Your task to perform on an android device: Add "macbook pro" to the cart on newegg.com, then select checkout. Image 0: 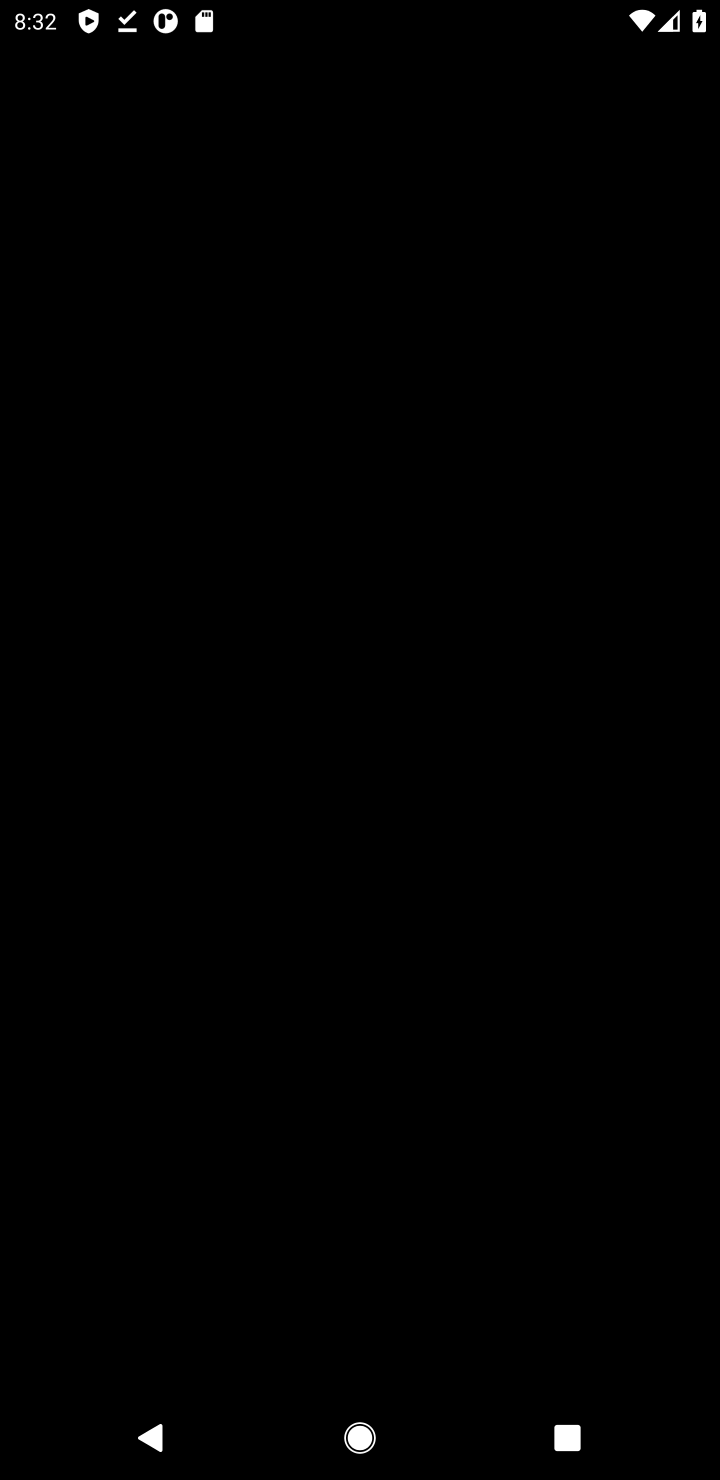
Step 0: press home button
Your task to perform on an android device: Add "macbook pro" to the cart on newegg.com, then select checkout. Image 1: 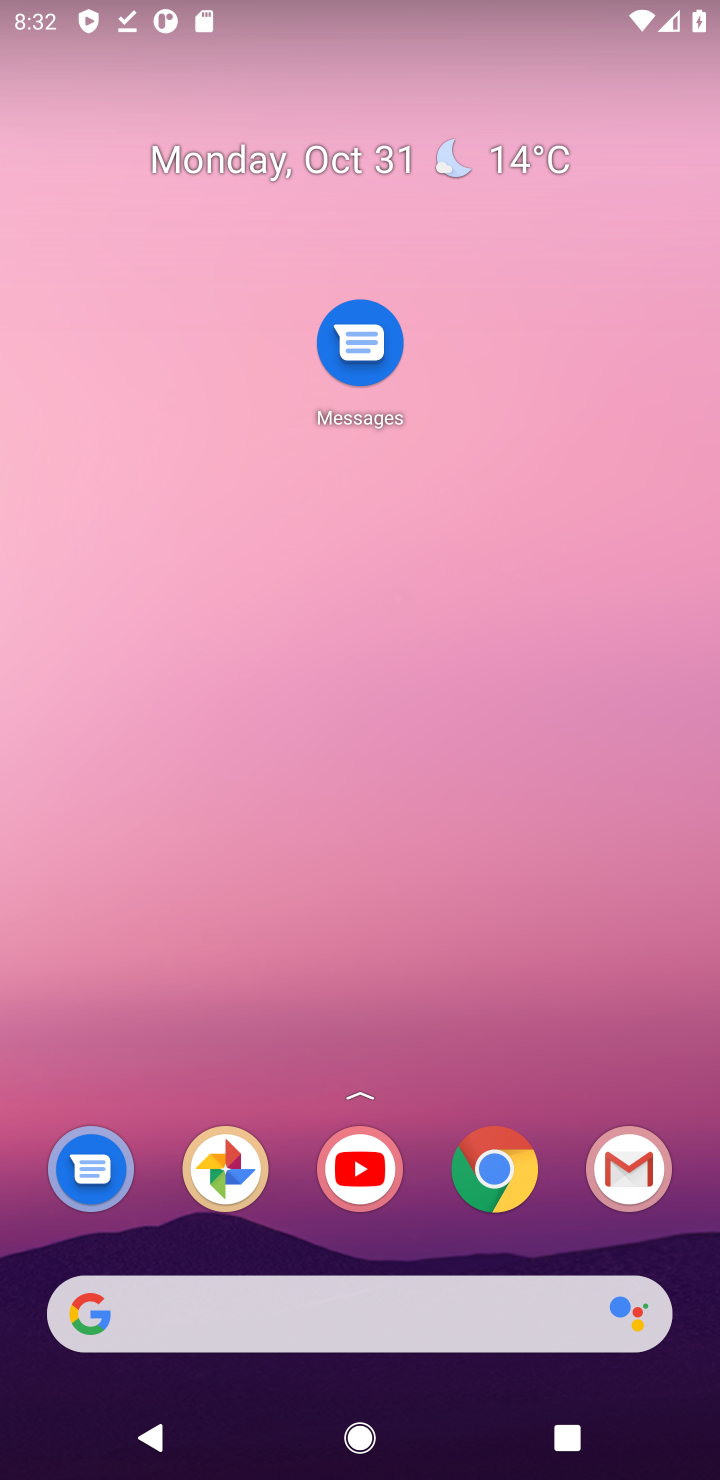
Step 1: drag from (269, 662) to (274, 128)
Your task to perform on an android device: Add "macbook pro" to the cart on newegg.com, then select checkout. Image 2: 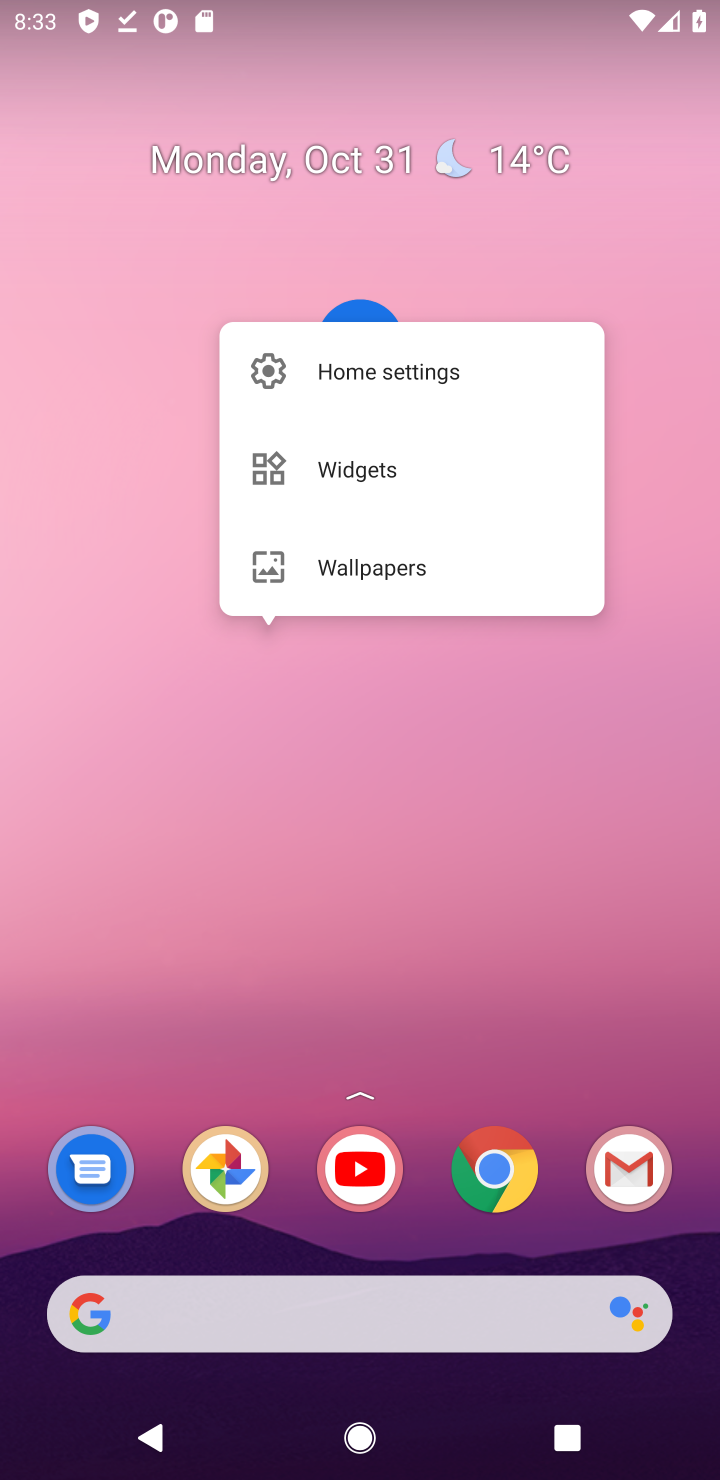
Step 2: click (366, 828)
Your task to perform on an android device: Add "macbook pro" to the cart on newegg.com, then select checkout. Image 3: 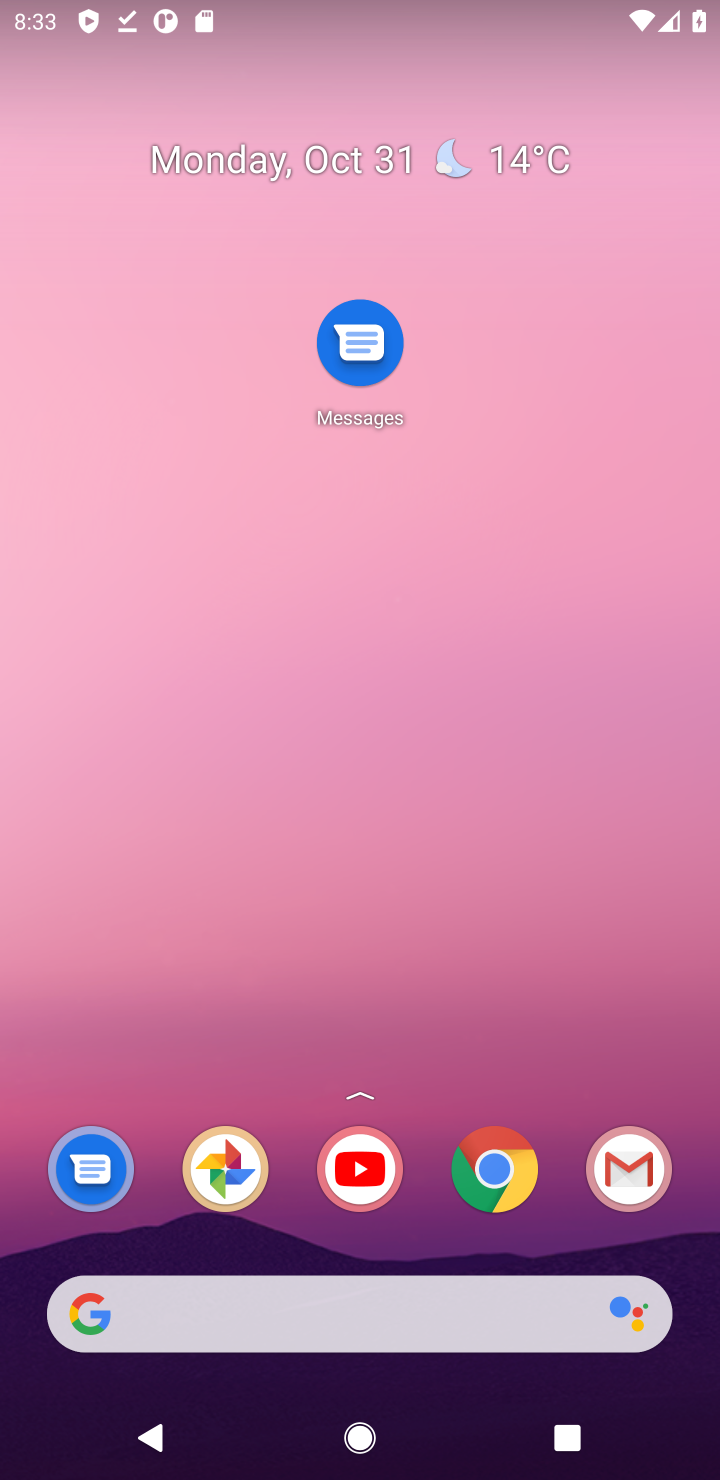
Step 3: drag from (185, 944) to (85, 114)
Your task to perform on an android device: Add "macbook pro" to the cart on newegg.com, then select checkout. Image 4: 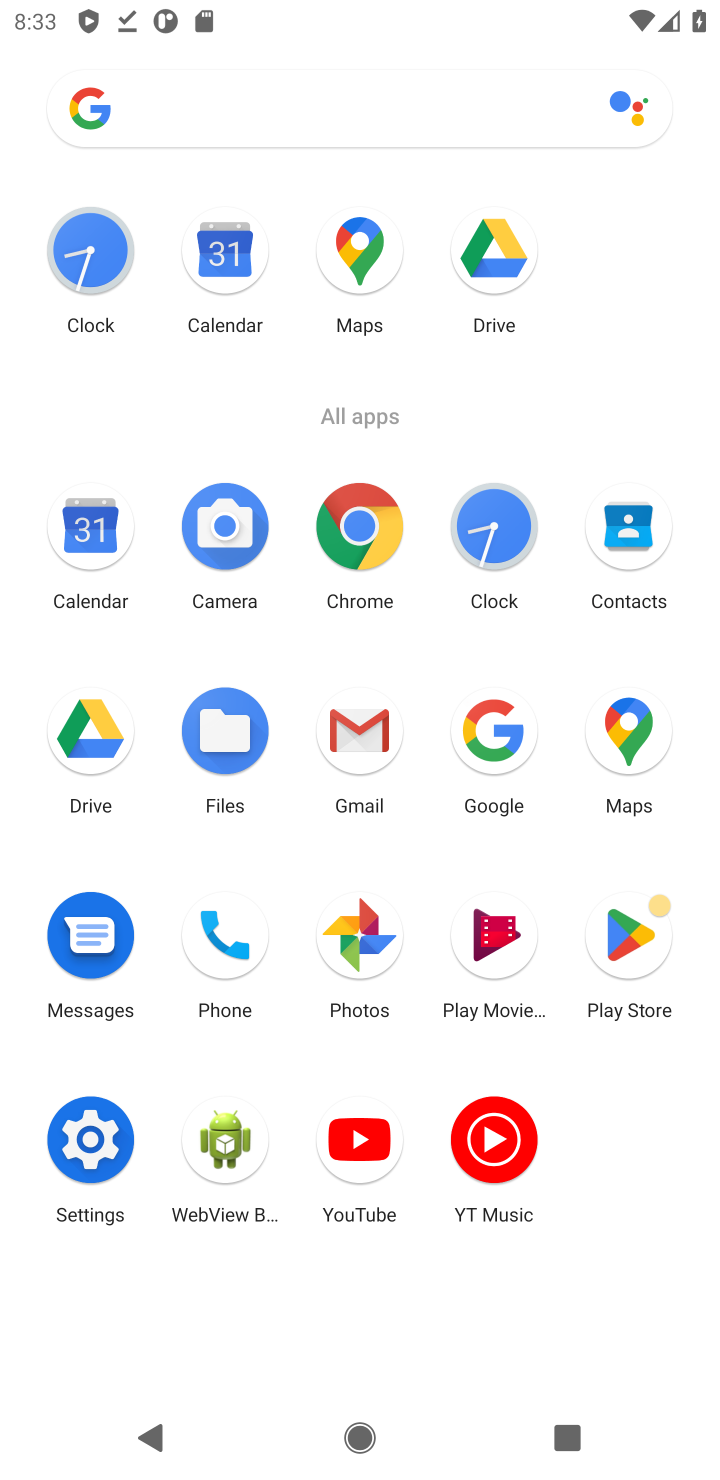
Step 4: click (496, 729)
Your task to perform on an android device: Add "macbook pro" to the cart on newegg.com, then select checkout. Image 5: 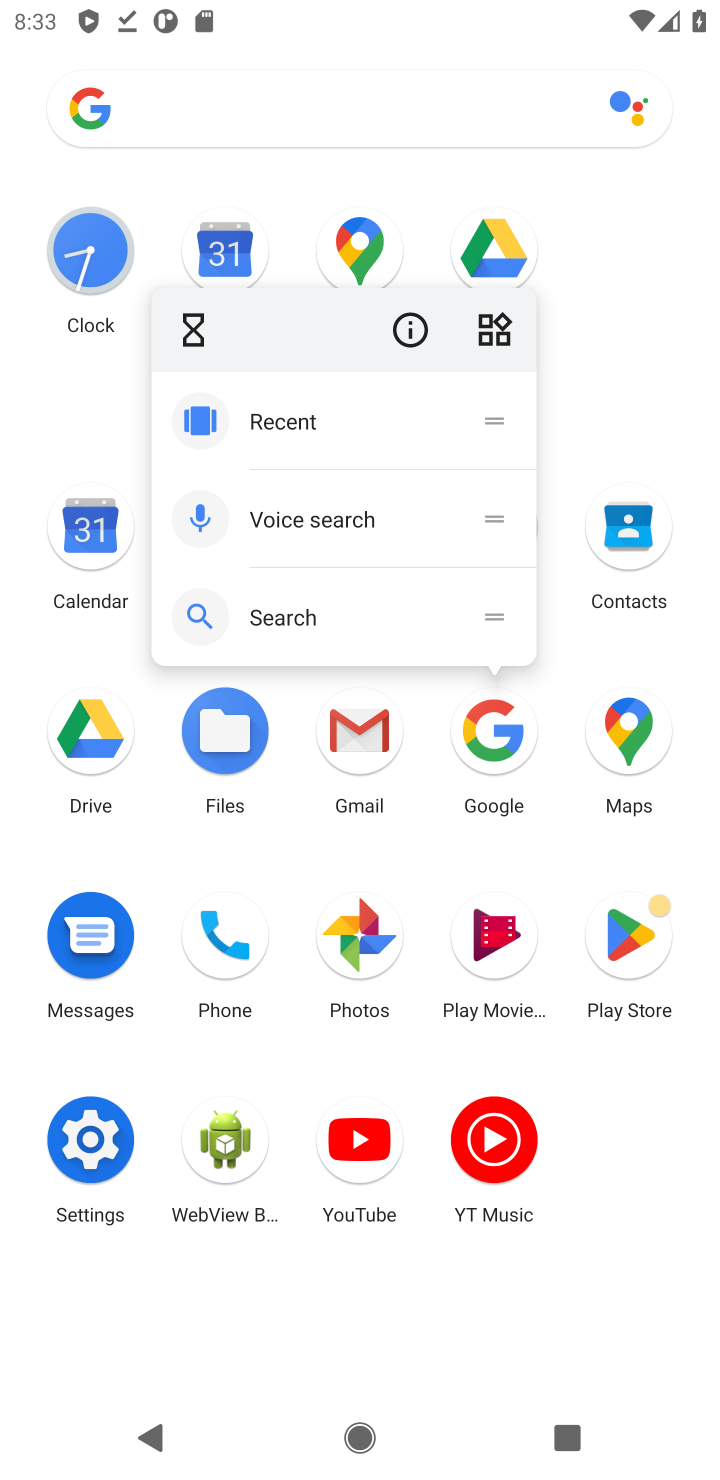
Step 5: click (492, 726)
Your task to perform on an android device: Add "macbook pro" to the cart on newegg.com, then select checkout. Image 6: 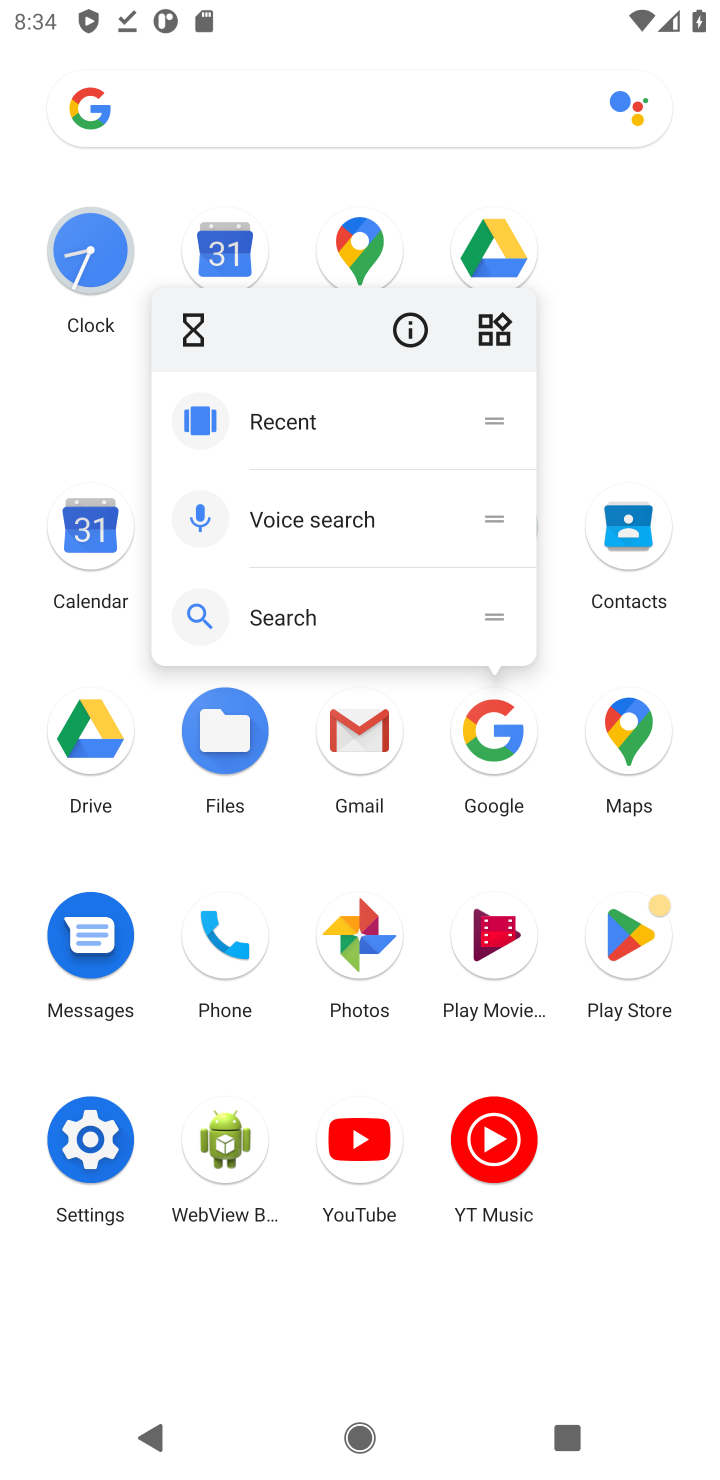
Step 6: click (498, 734)
Your task to perform on an android device: Add "macbook pro" to the cart on newegg.com, then select checkout. Image 7: 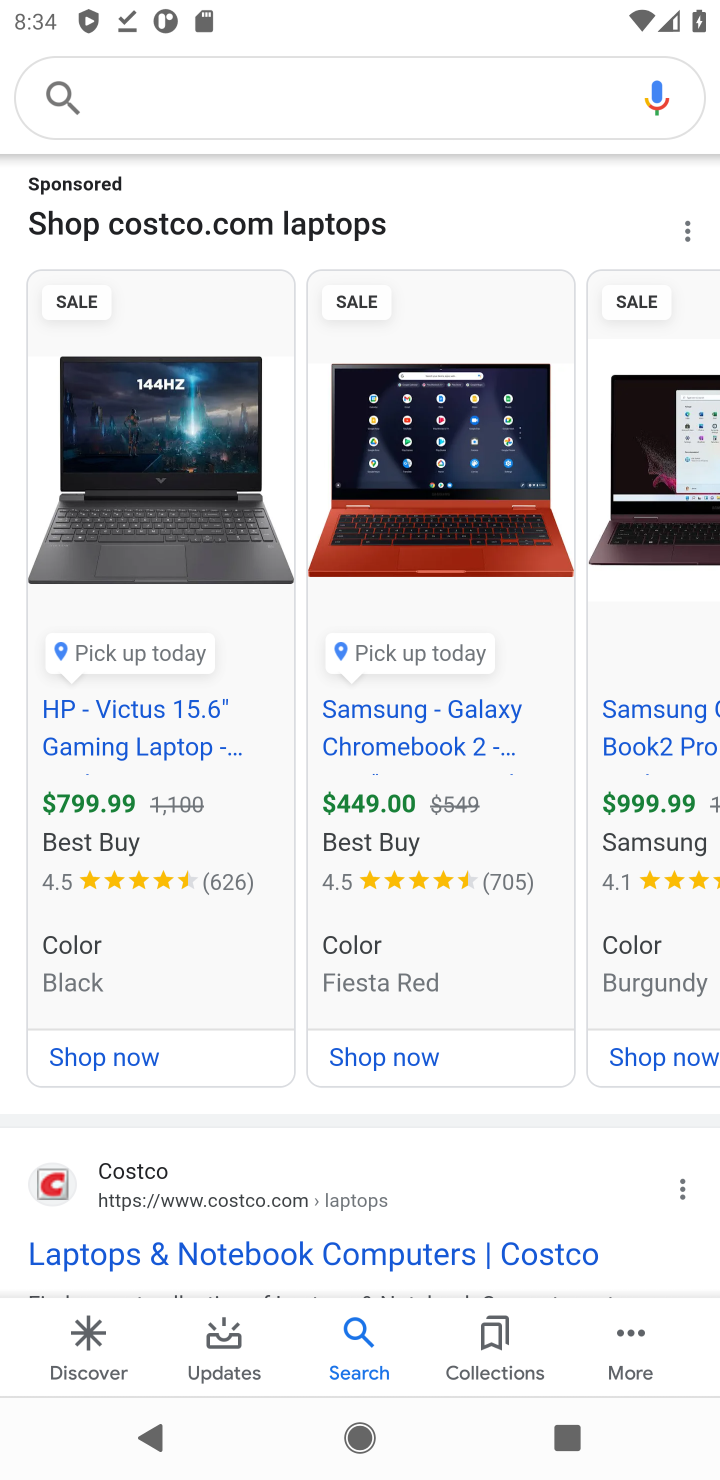
Step 7: click (479, 707)
Your task to perform on an android device: Add "macbook pro" to the cart on newegg.com, then select checkout. Image 8: 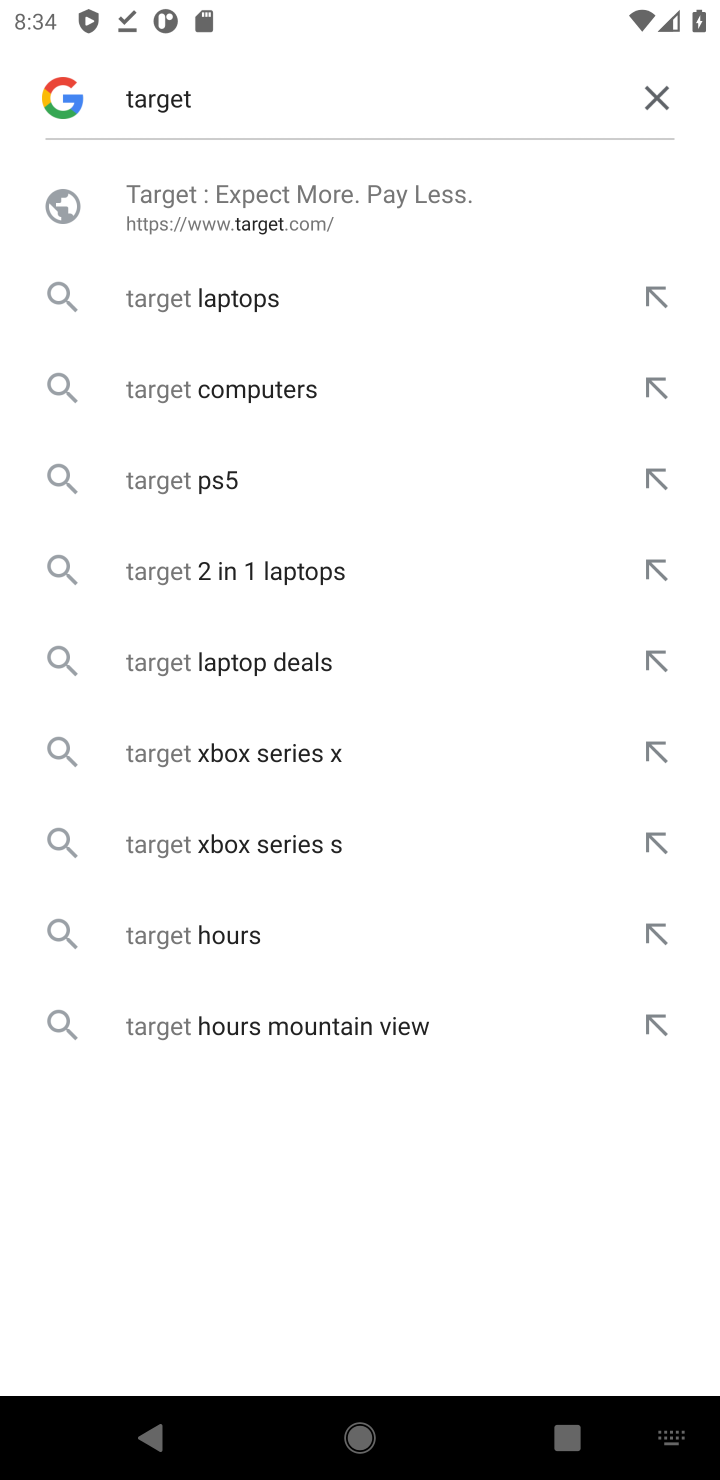
Step 8: click (185, 75)
Your task to perform on an android device: Add "macbook pro" to the cart on newegg.com, then select checkout. Image 9: 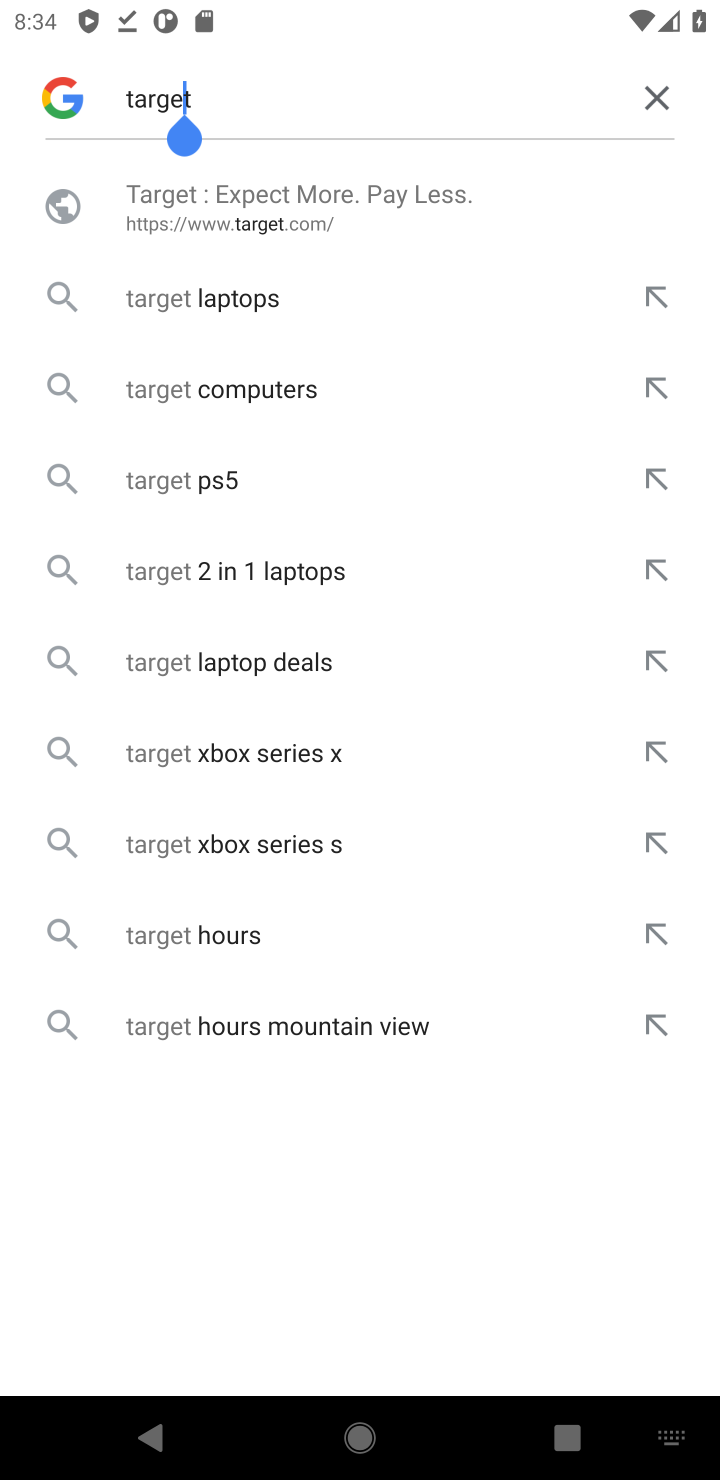
Step 9: click (657, 108)
Your task to perform on an android device: Add "macbook pro" to the cart on newegg.com, then select checkout. Image 10: 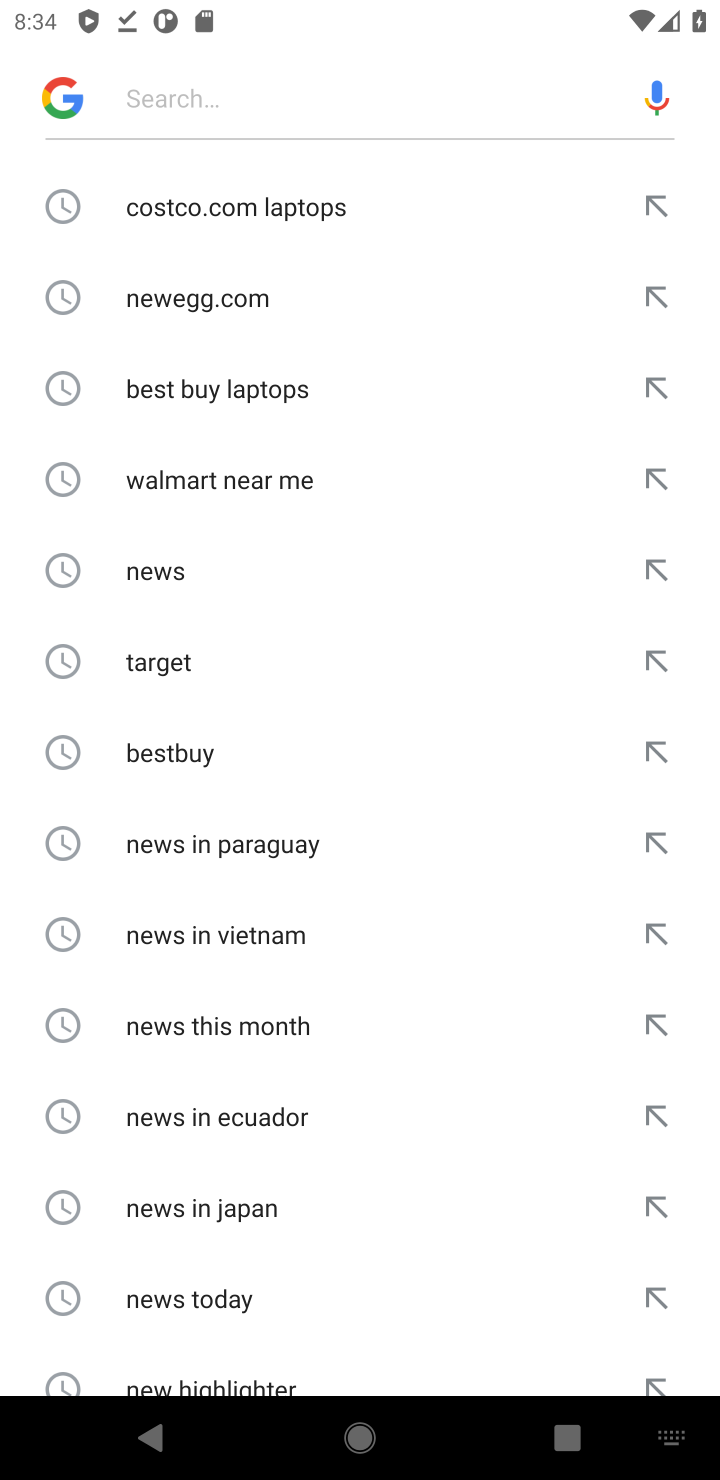
Step 10: click (248, 84)
Your task to perform on an android device: Add "macbook pro" to the cart on newegg.com, then select checkout. Image 11: 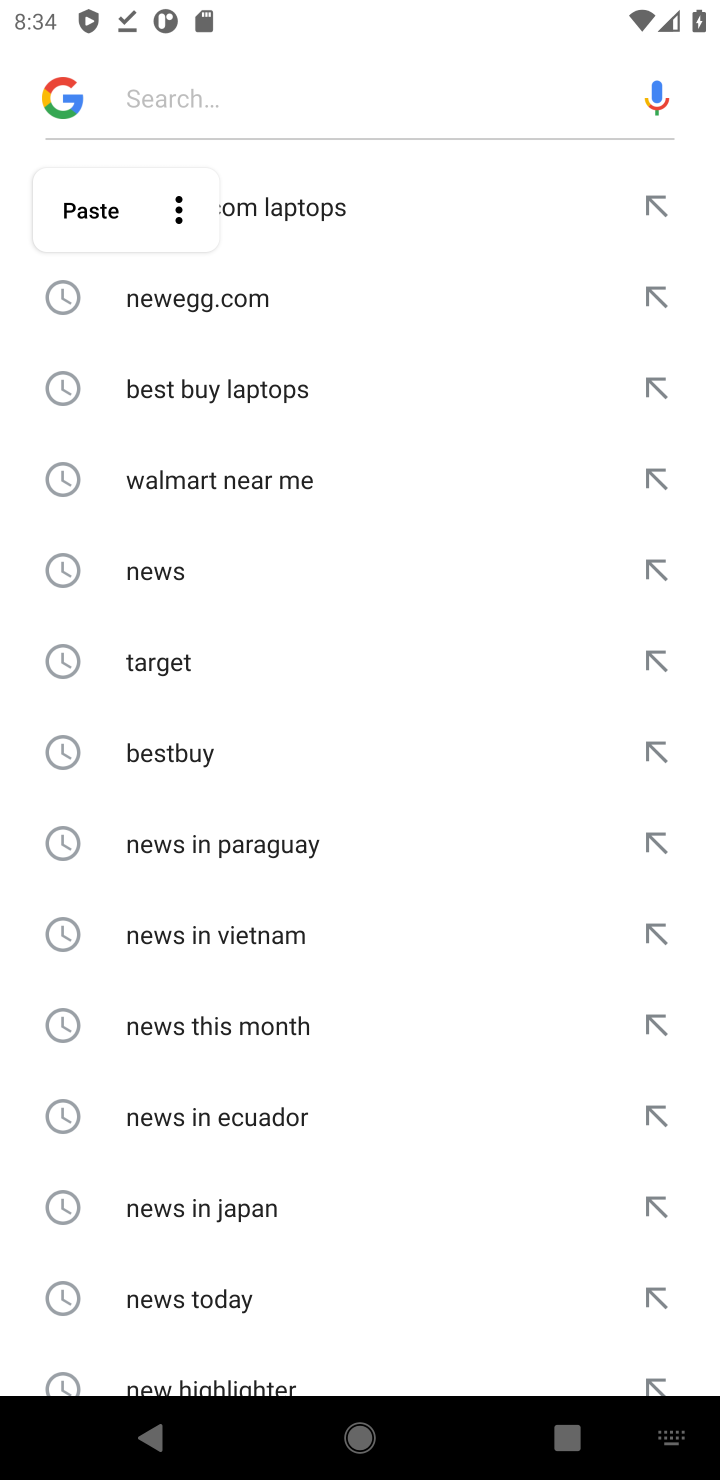
Step 11: click (220, 64)
Your task to perform on an android device: Add "macbook pro" to the cart on newegg.com, then select checkout. Image 12: 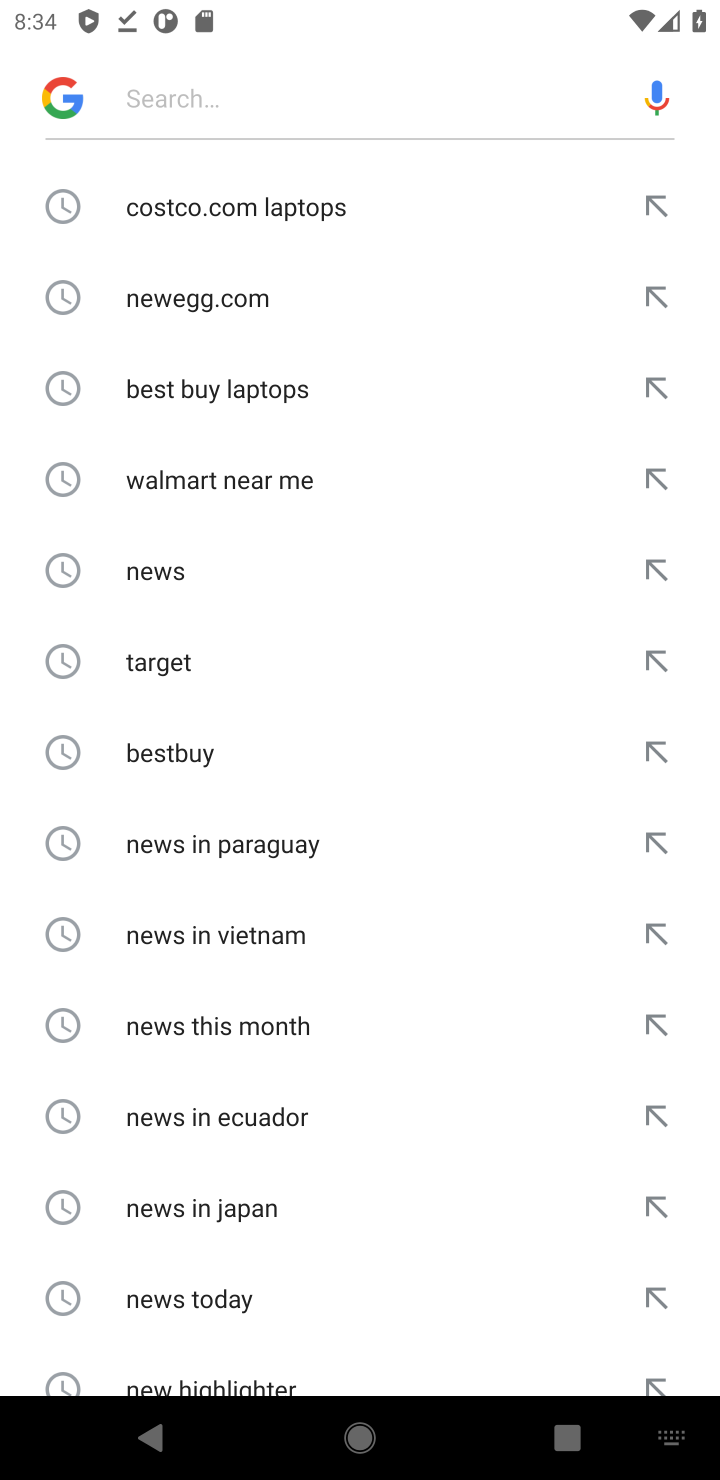
Step 12: type "newegg "
Your task to perform on an android device: Add "macbook pro" to the cart on newegg.com, then select checkout. Image 13: 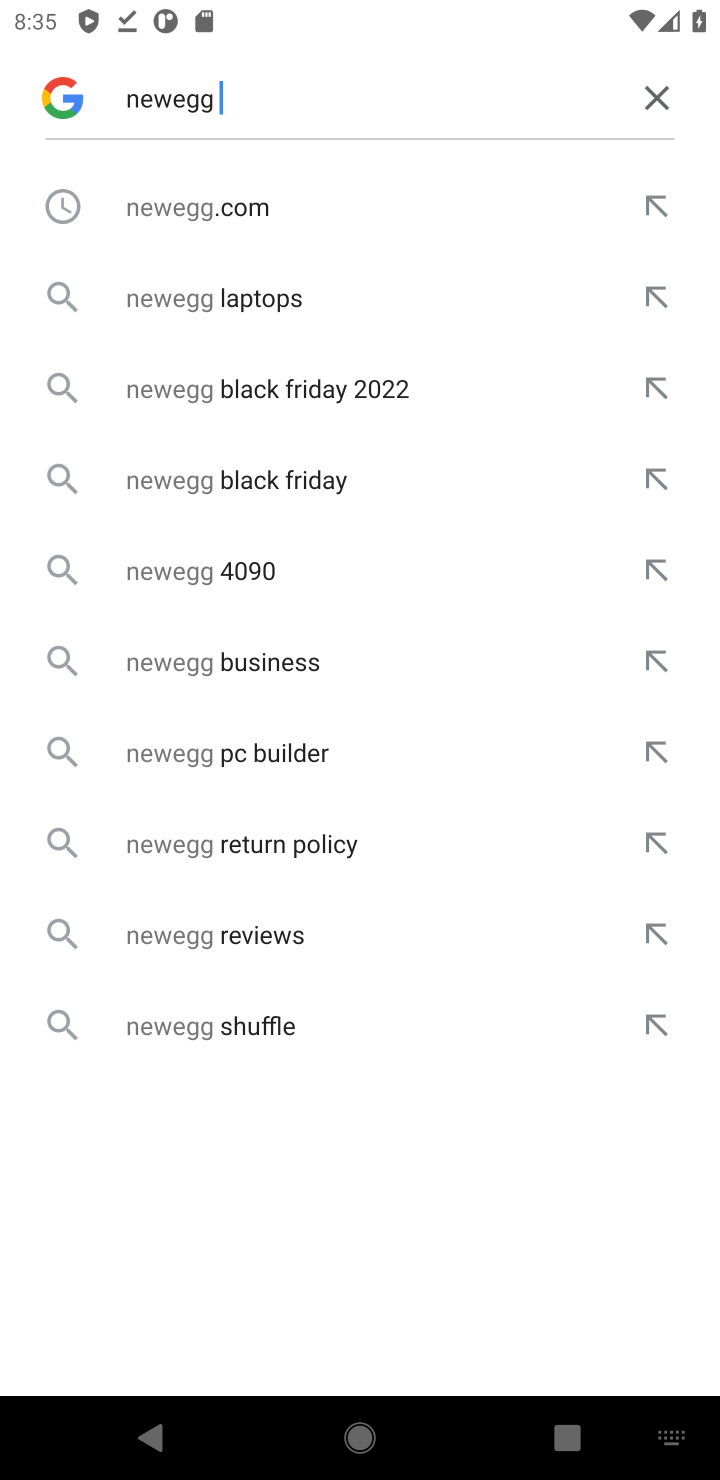
Step 13: click (196, 295)
Your task to perform on an android device: Add "macbook pro" to the cart on newegg.com, then select checkout. Image 14: 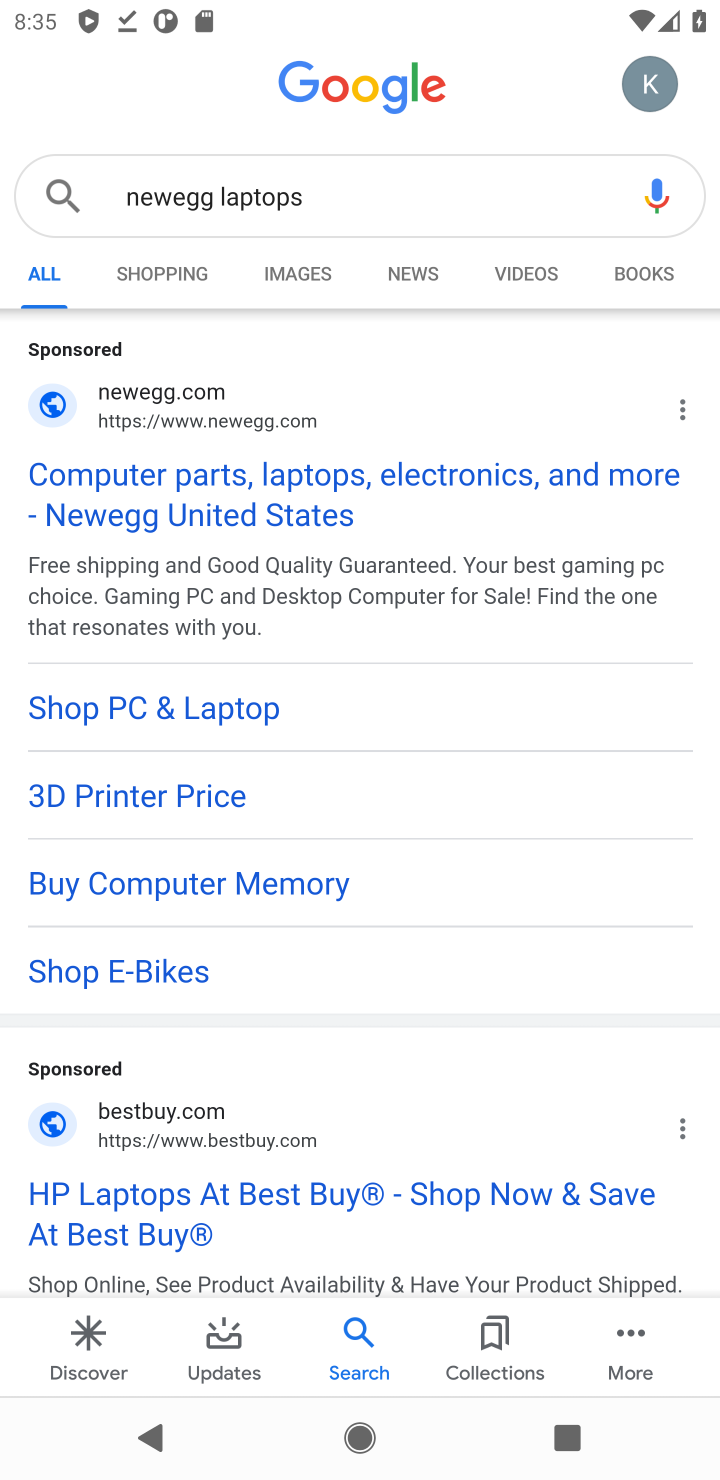
Step 14: click (257, 456)
Your task to perform on an android device: Add "macbook pro" to the cart on newegg.com, then select checkout. Image 15: 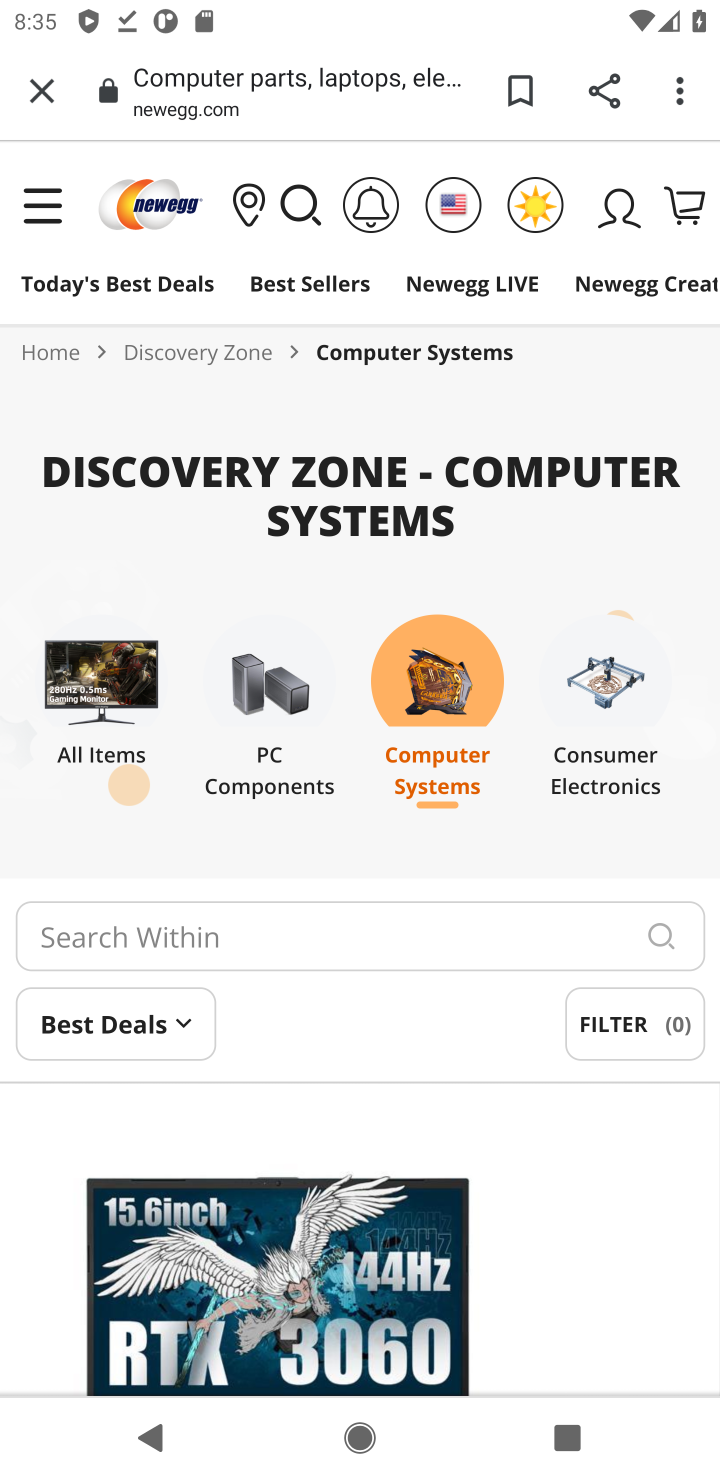
Step 15: drag from (351, 1352) to (370, 870)
Your task to perform on an android device: Add "macbook pro" to the cart on newegg.com, then select checkout. Image 16: 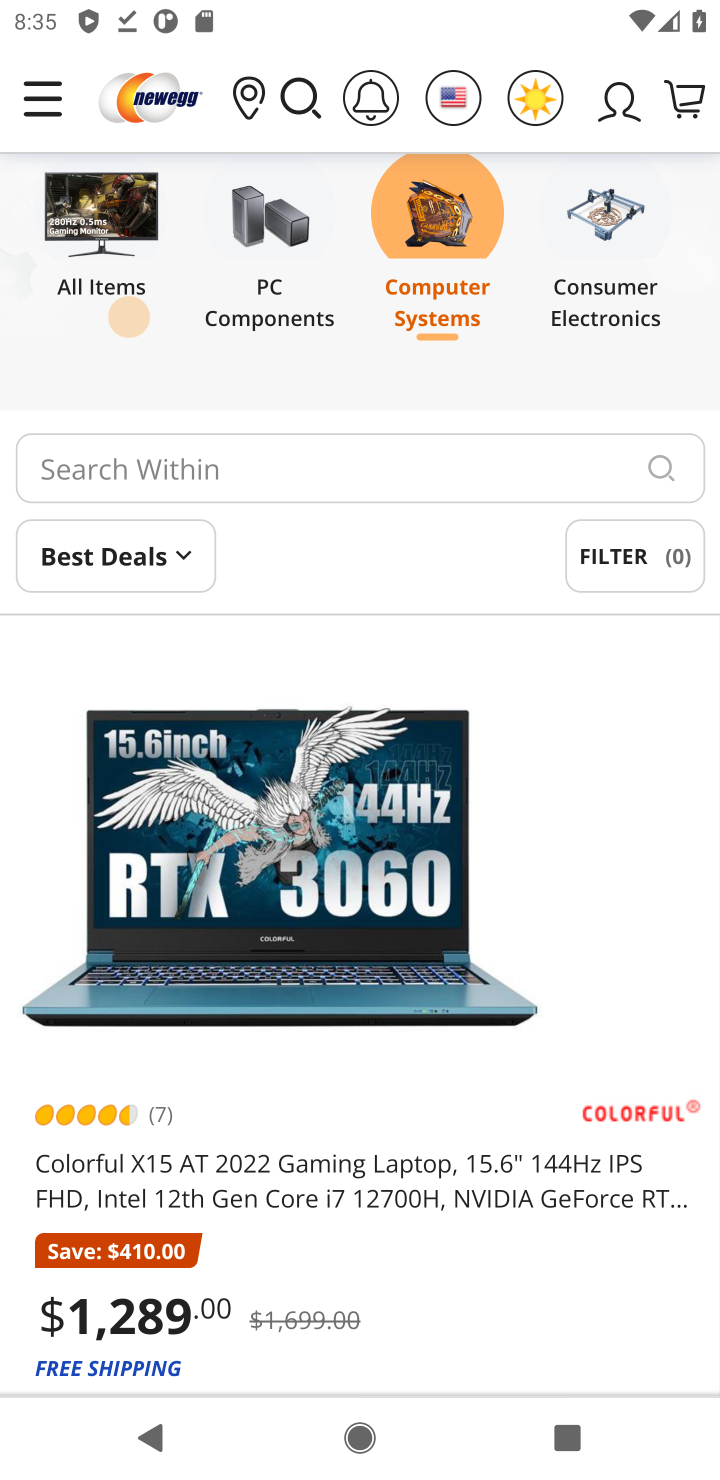
Step 16: drag from (285, 580) to (235, 1373)
Your task to perform on an android device: Add "macbook pro" to the cart on newegg.com, then select checkout. Image 17: 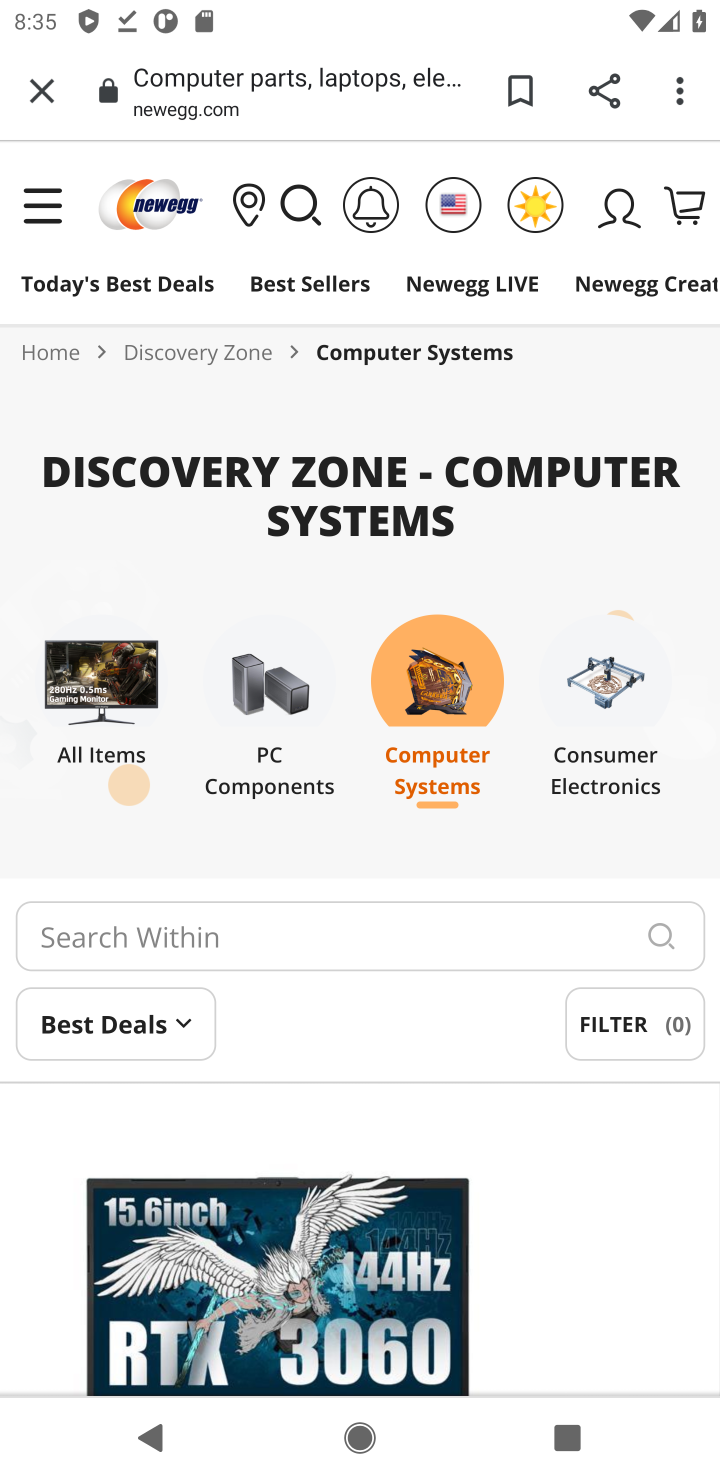
Step 17: click (298, 922)
Your task to perform on an android device: Add "macbook pro" to the cart on newegg.com, then select checkout. Image 18: 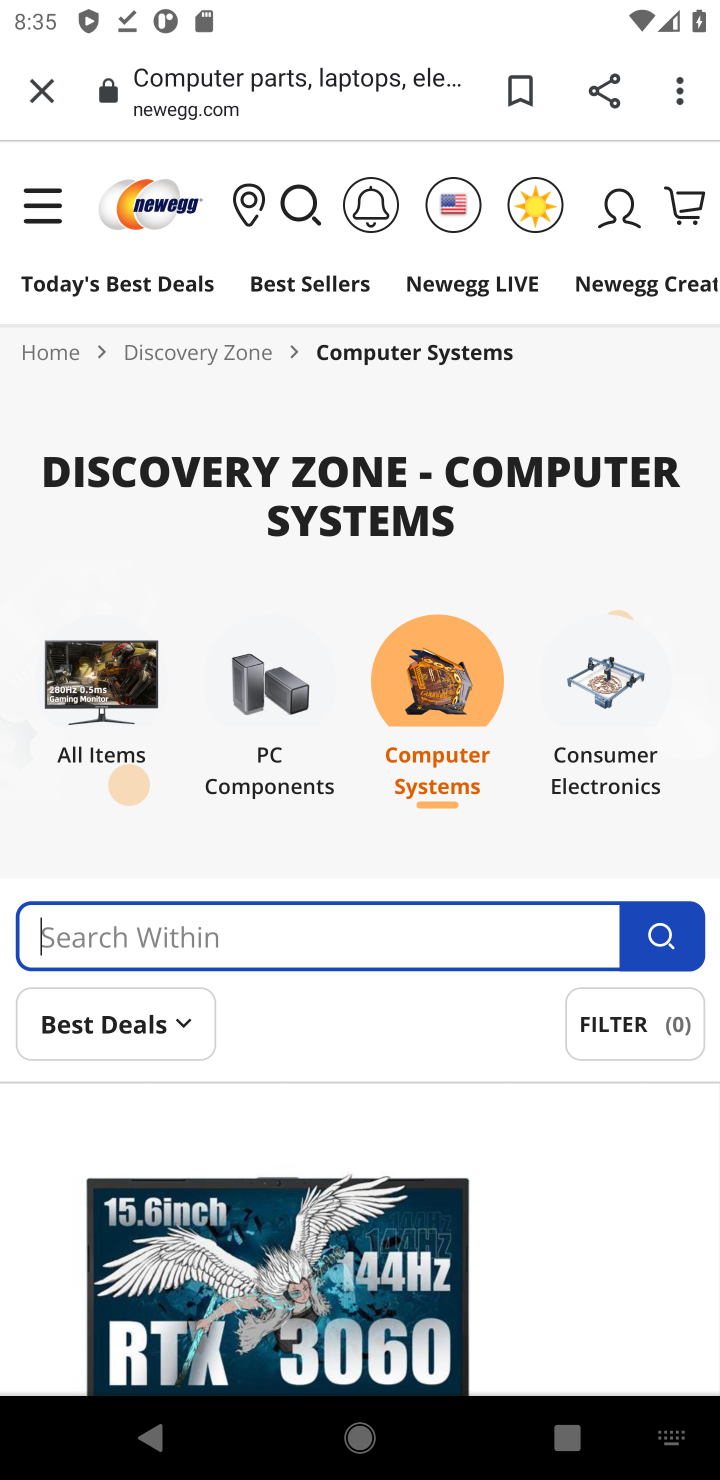
Step 18: click (333, 914)
Your task to perform on an android device: Add "macbook pro" to the cart on newegg.com, then select checkout. Image 19: 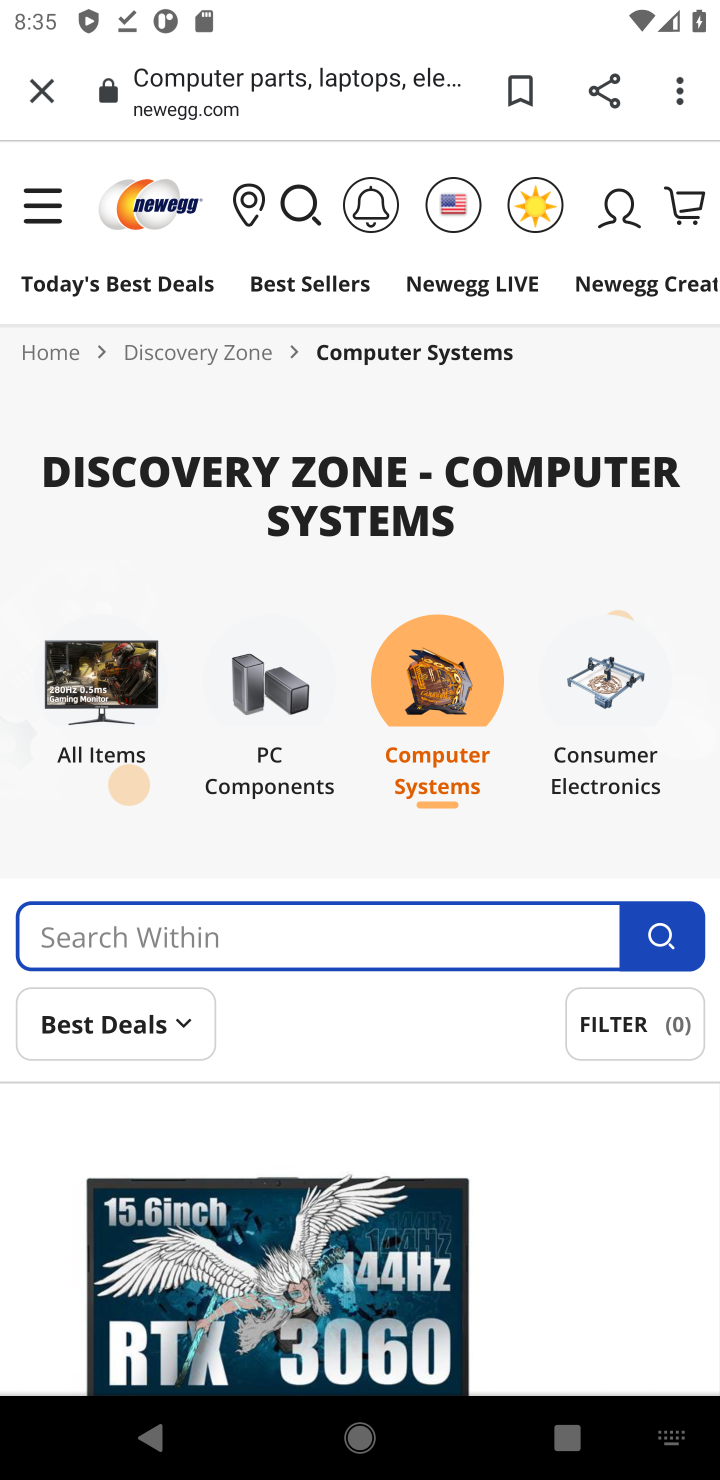
Step 19: type "macbook "
Your task to perform on an android device: Add "macbook pro" to the cart on newegg.com, then select checkout. Image 20: 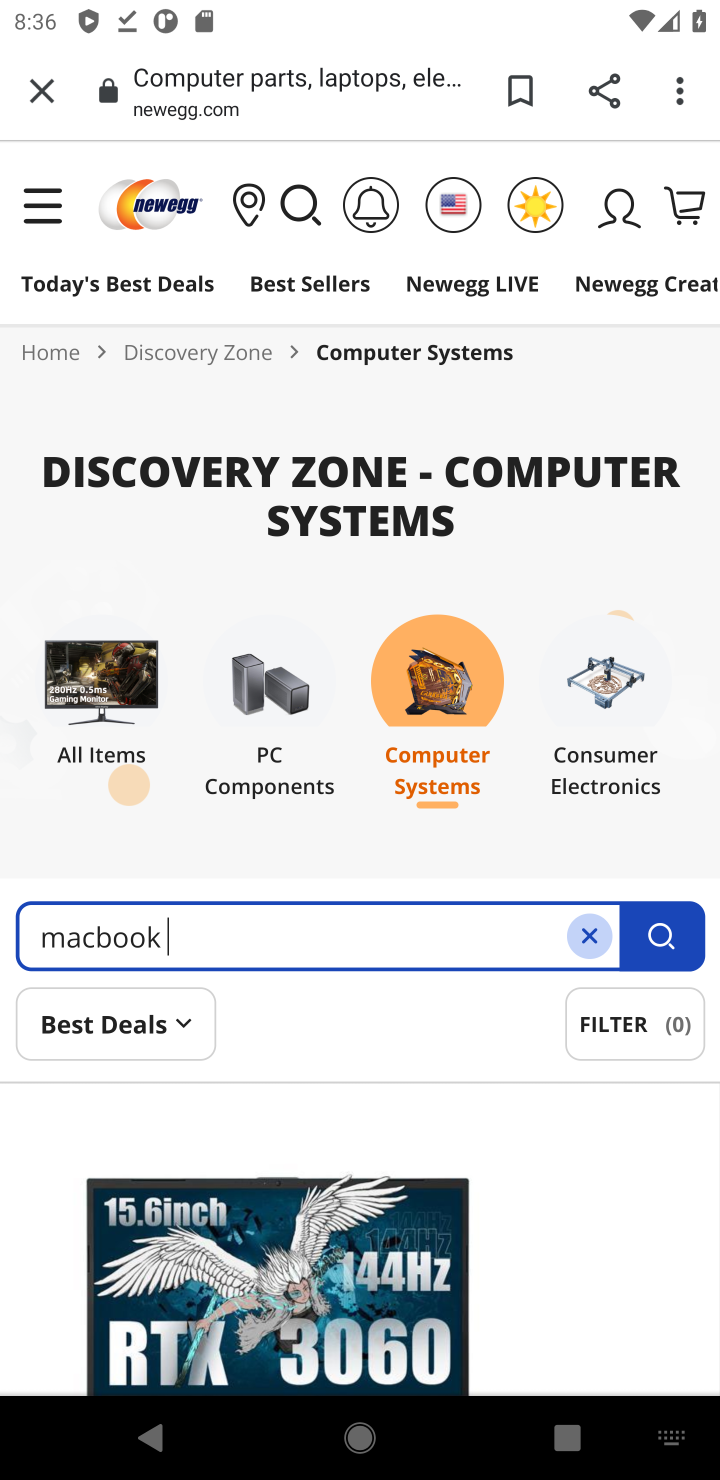
Step 20: click (636, 937)
Your task to perform on an android device: Add "macbook pro" to the cart on newegg.com, then select checkout. Image 21: 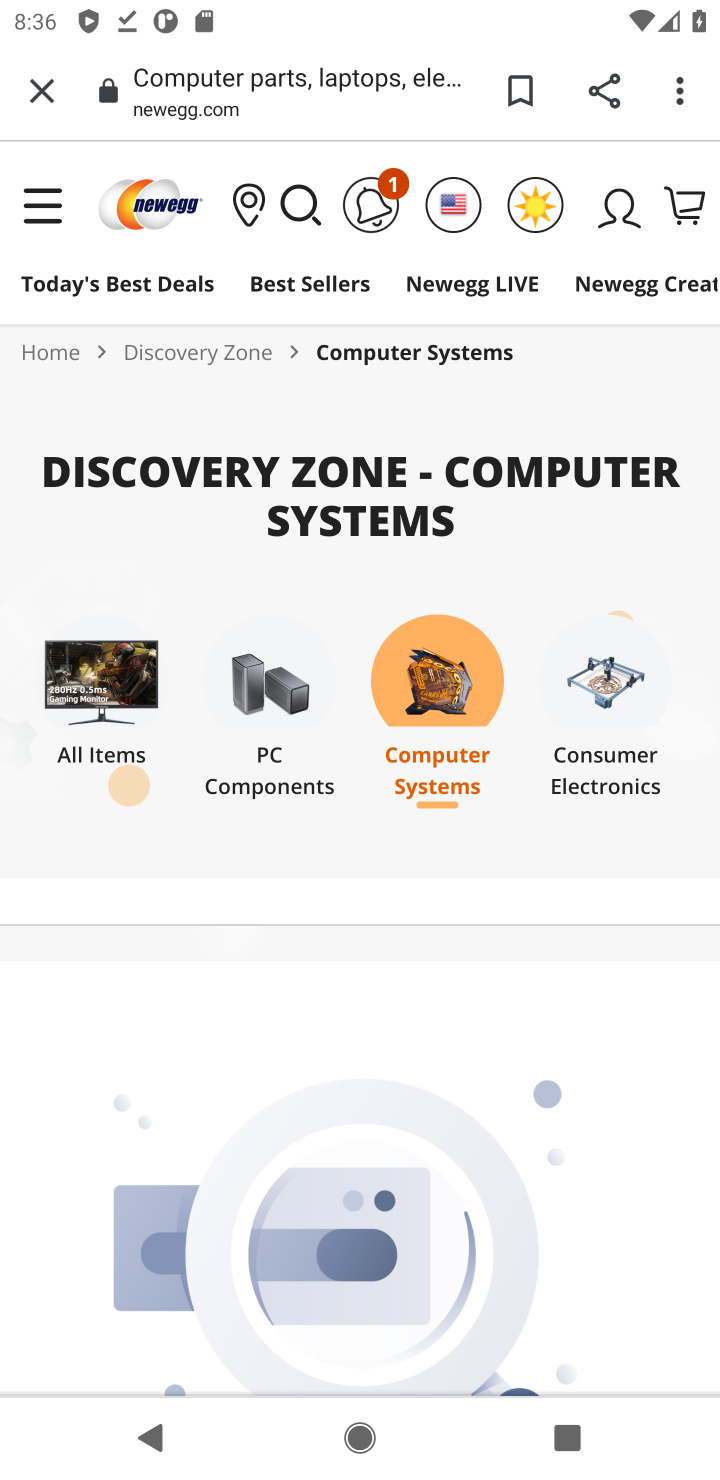
Step 21: drag from (317, 1183) to (309, 775)
Your task to perform on an android device: Add "macbook pro" to the cart on newegg.com, then select checkout. Image 22: 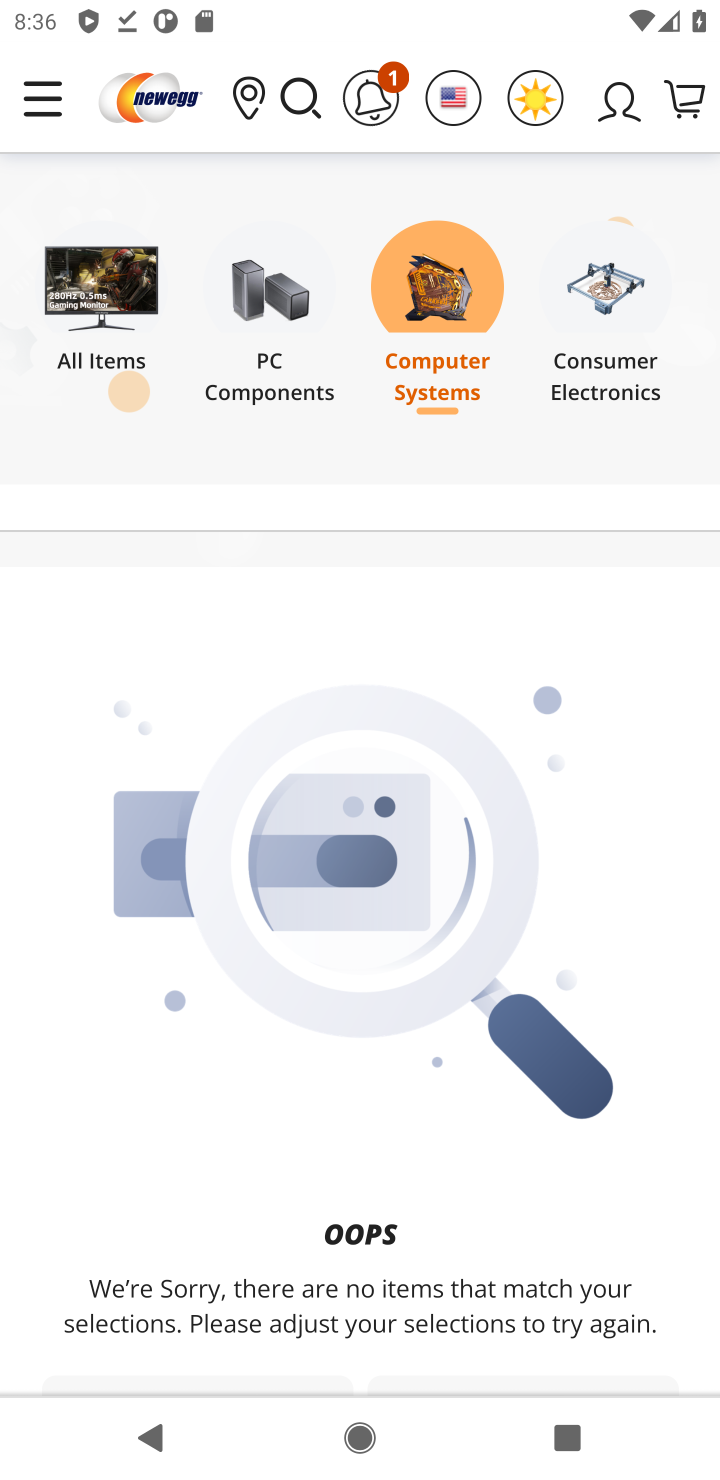
Step 22: drag from (297, 1079) to (294, 927)
Your task to perform on an android device: Add "macbook pro" to the cart on newegg.com, then select checkout. Image 23: 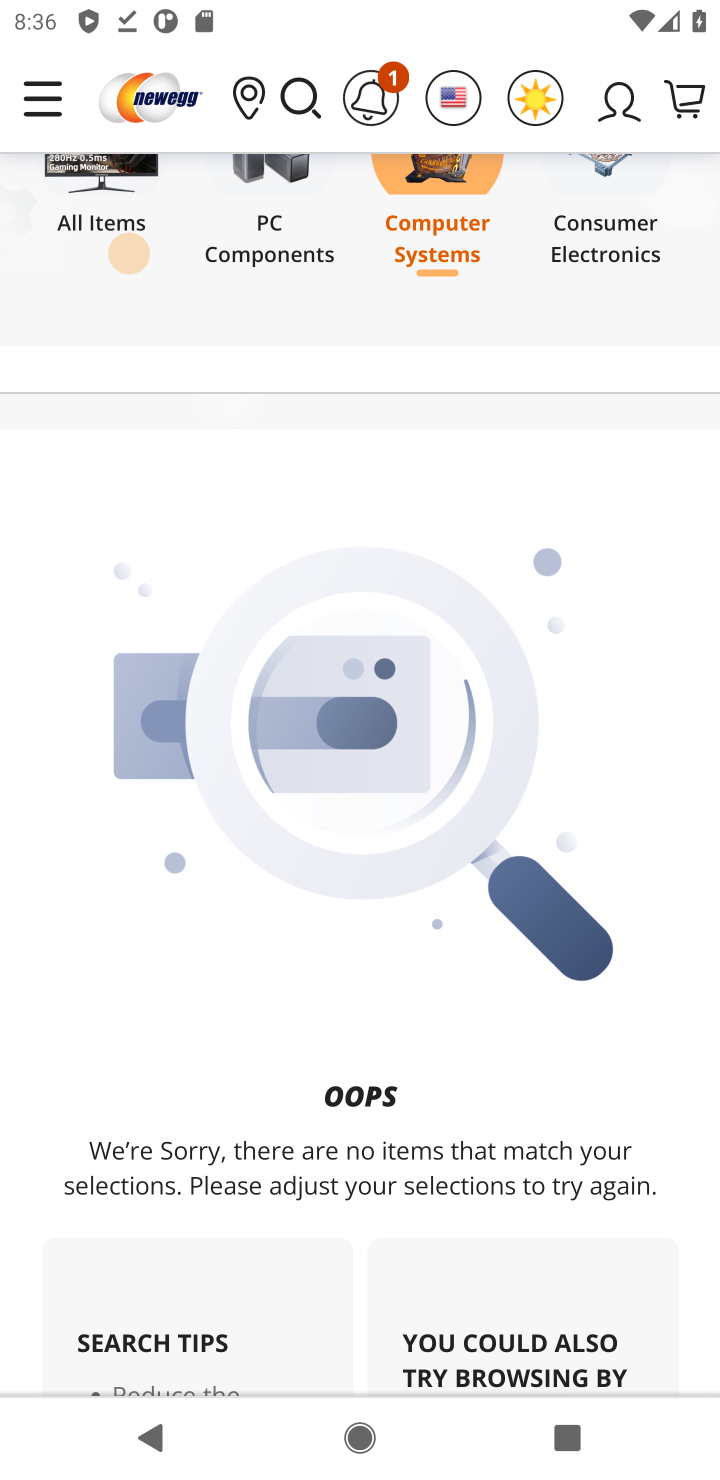
Step 23: drag from (280, 1247) to (399, 268)
Your task to perform on an android device: Add "macbook pro" to the cart on newegg.com, then select checkout. Image 24: 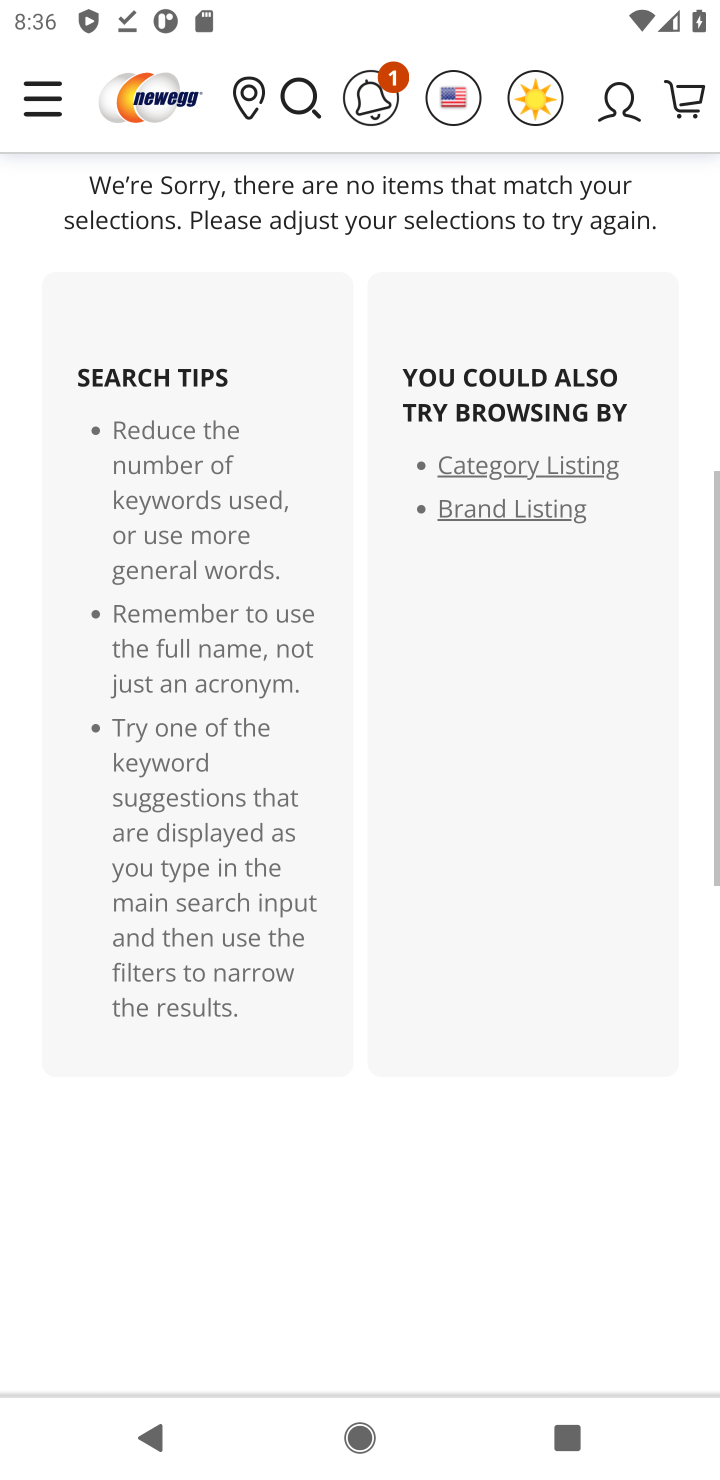
Step 24: drag from (364, 392) to (344, 1458)
Your task to perform on an android device: Add "macbook pro" to the cart on newegg.com, then select checkout. Image 25: 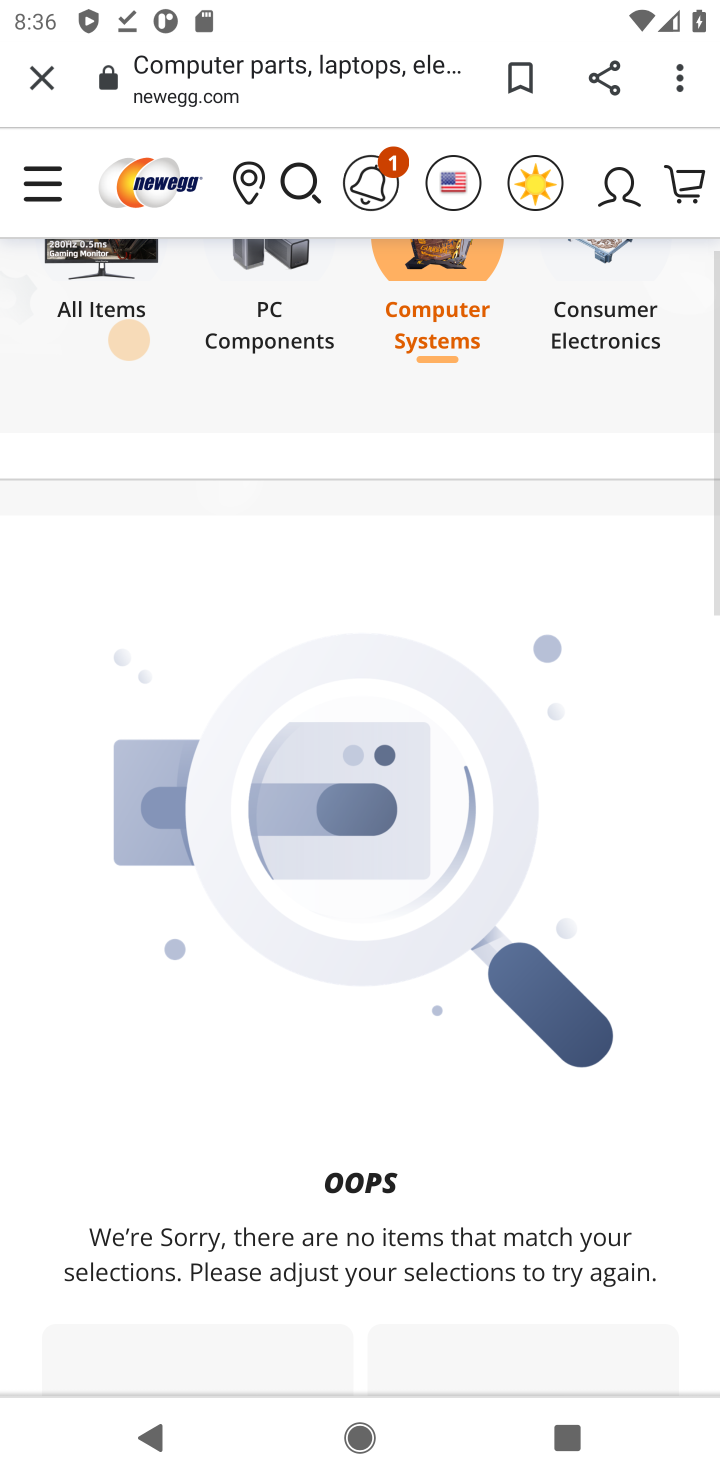
Step 25: drag from (283, 1410) to (357, 1418)
Your task to perform on an android device: Add "macbook pro" to the cart on newegg.com, then select checkout. Image 26: 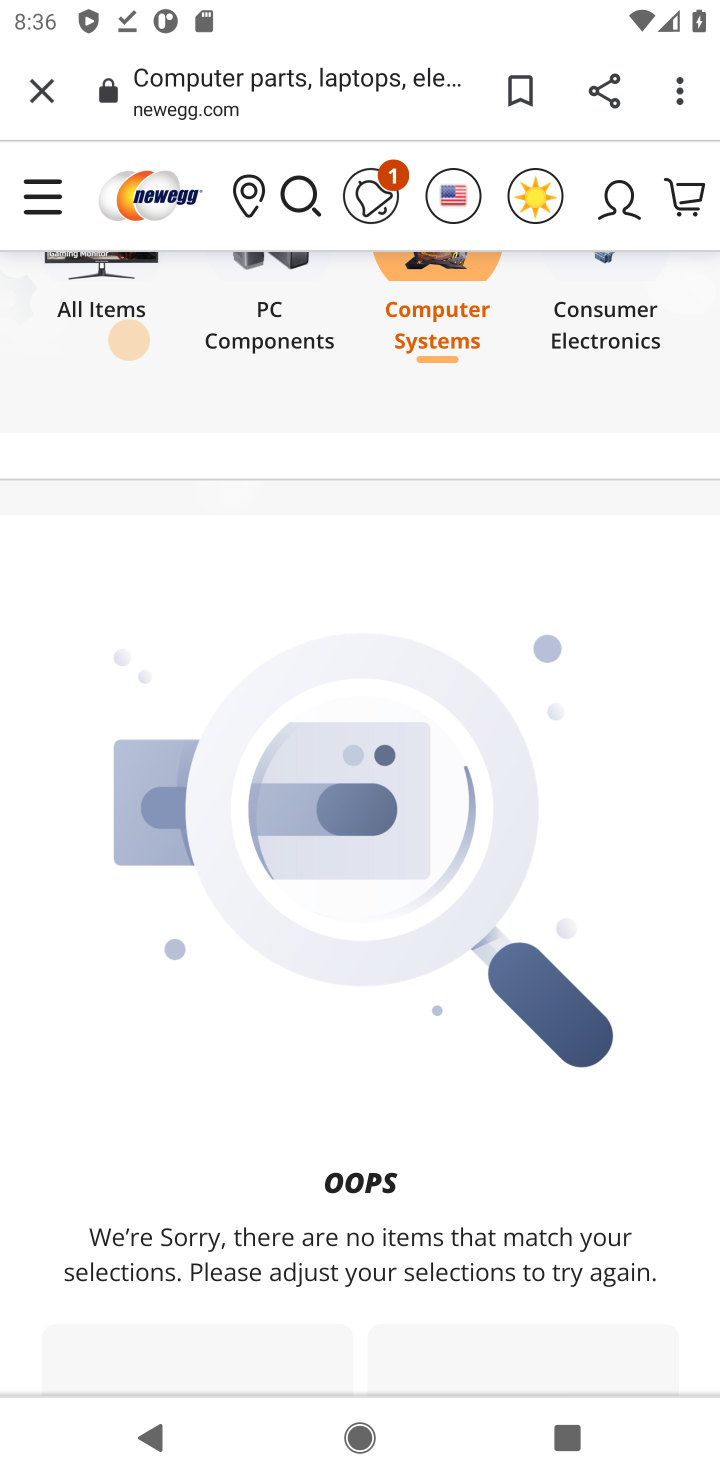
Step 26: drag from (140, 480) to (179, 1441)
Your task to perform on an android device: Add "macbook pro" to the cart on newegg.com, then select checkout. Image 27: 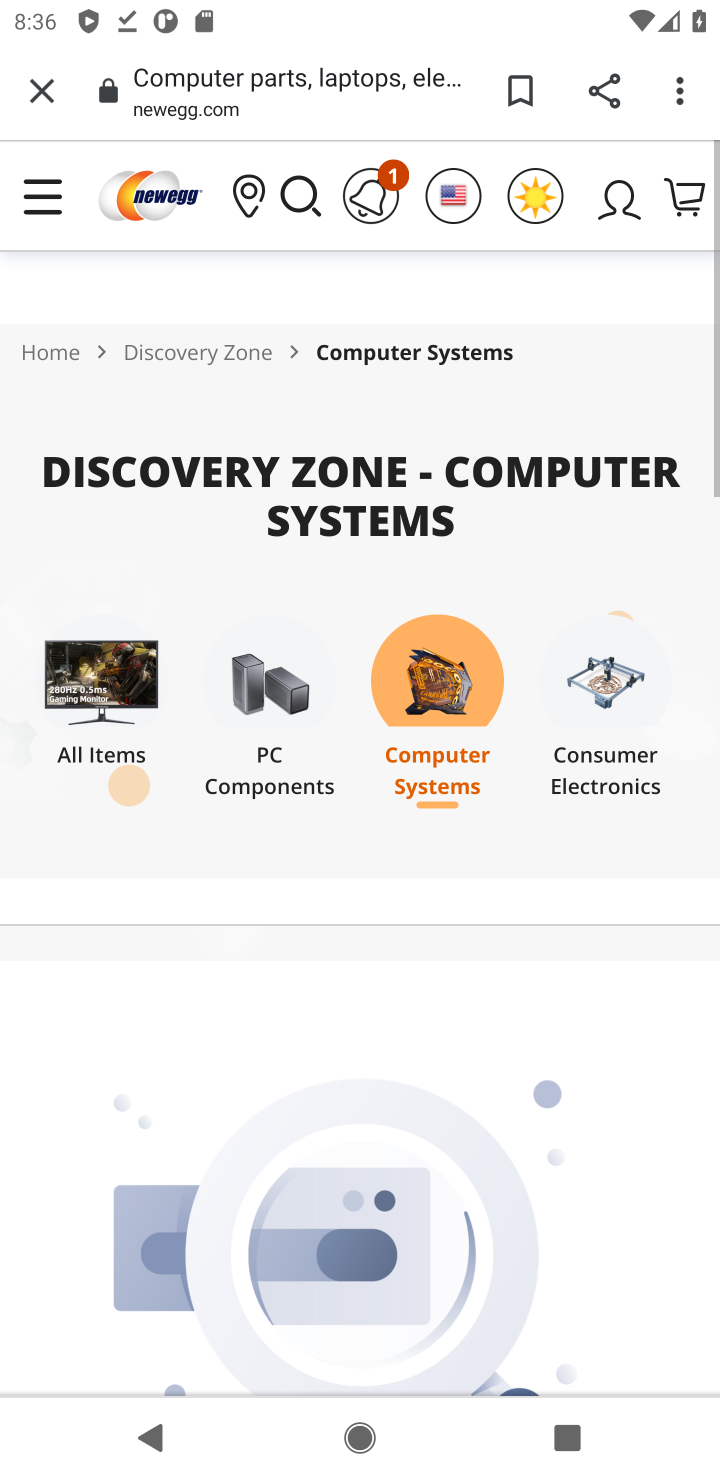
Step 27: drag from (307, 568) to (396, 1292)
Your task to perform on an android device: Add "macbook pro" to the cart on newegg.com, then select checkout. Image 28: 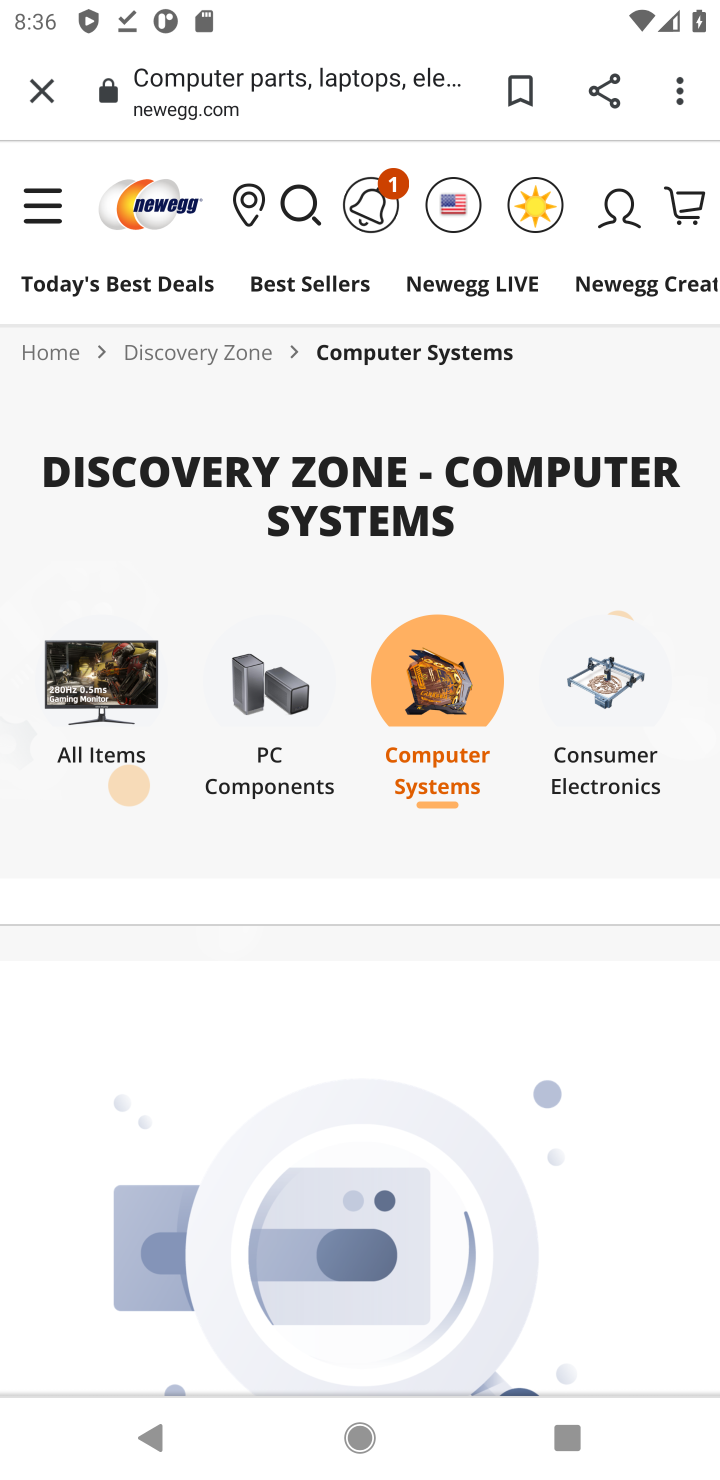
Step 28: drag from (267, 492) to (429, 1470)
Your task to perform on an android device: Add "macbook pro" to the cart on newegg.com, then select checkout. Image 29: 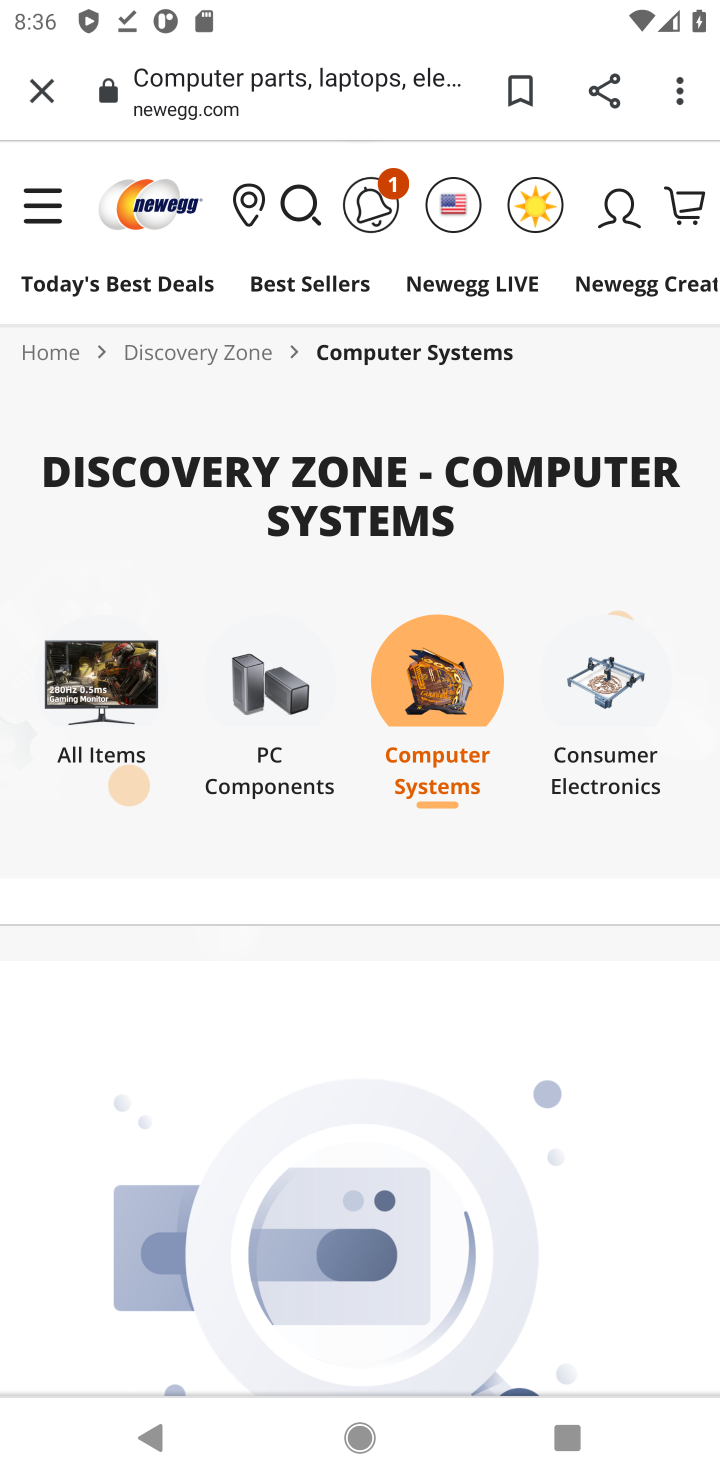
Step 29: click (305, 198)
Your task to perform on an android device: Add "macbook pro" to the cart on newegg.com, then select checkout. Image 30: 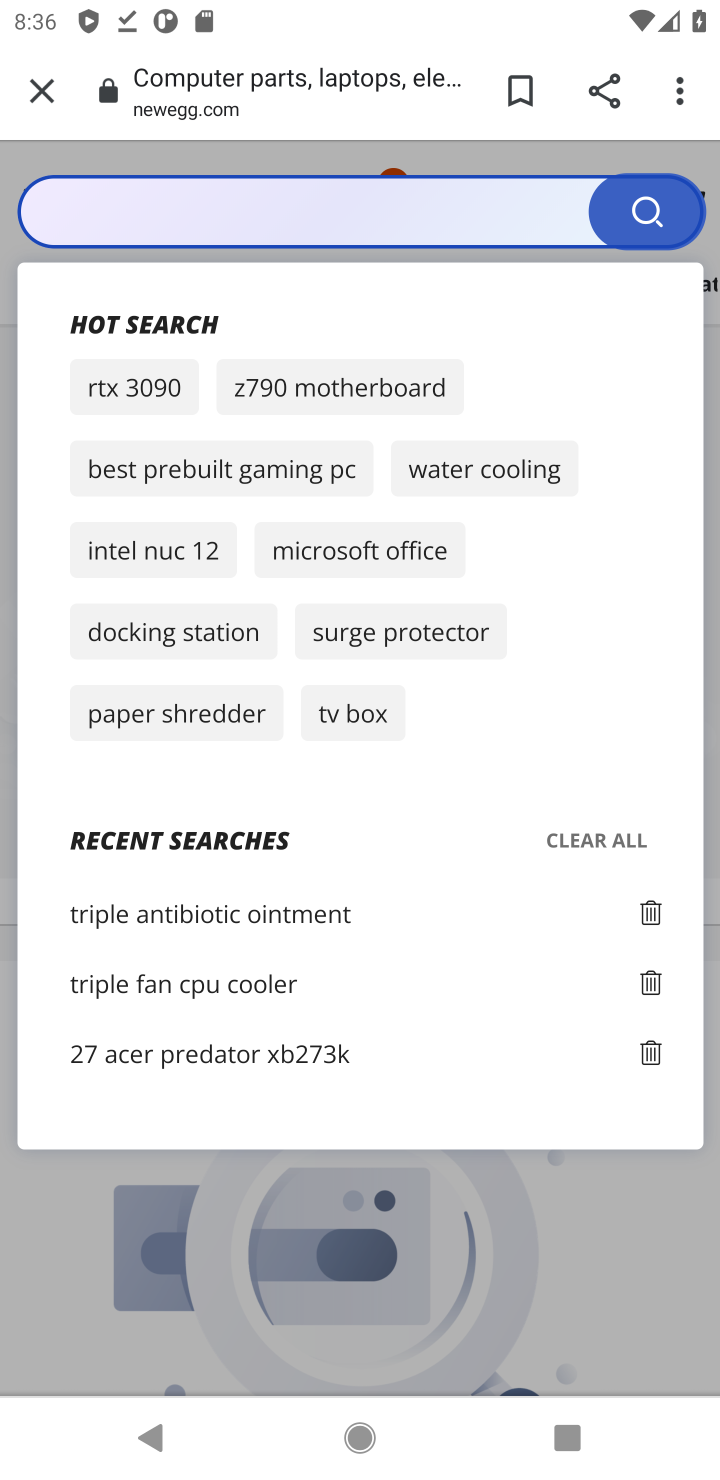
Step 30: click (349, 190)
Your task to perform on an android device: Add "macbook pro" to the cart on newegg.com, then select checkout. Image 31: 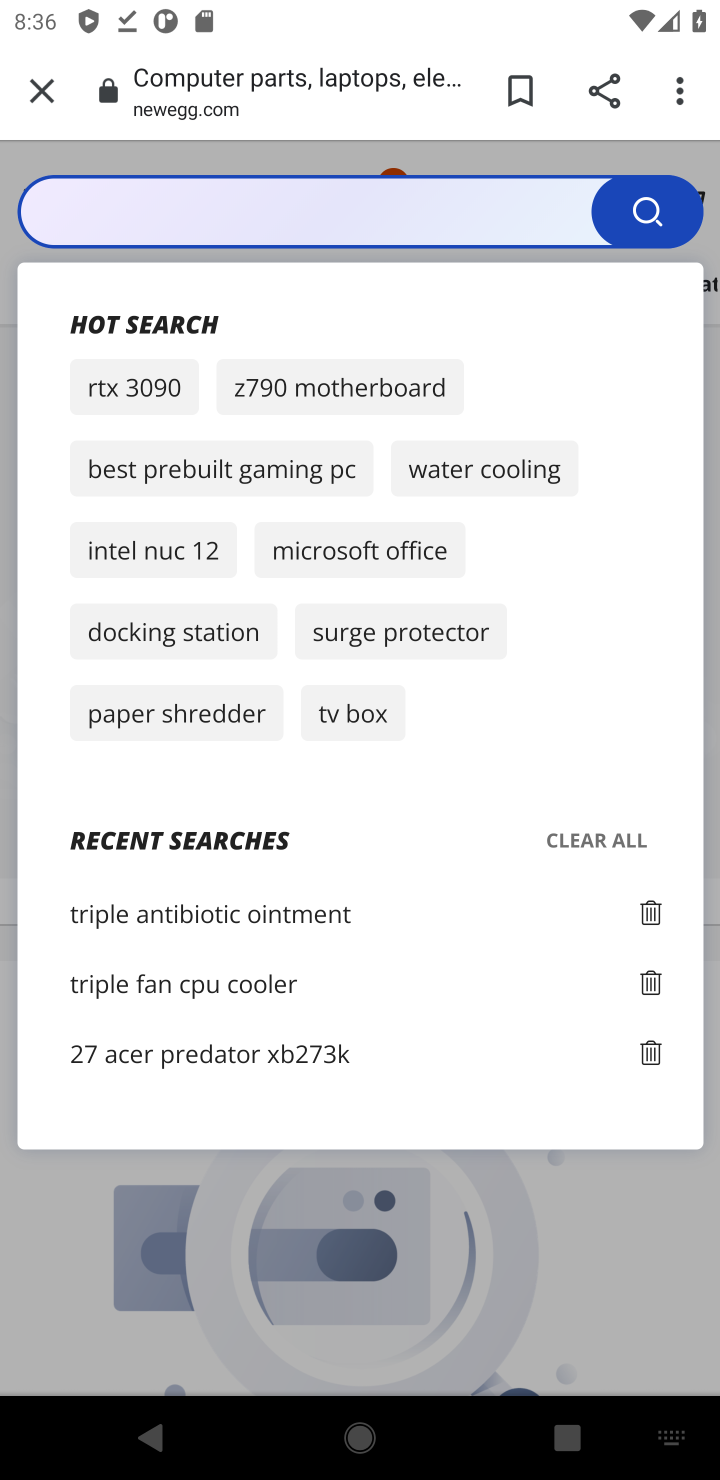
Step 31: type "macbook "
Your task to perform on an android device: Add "macbook pro" to the cart on newegg.com, then select checkout. Image 32: 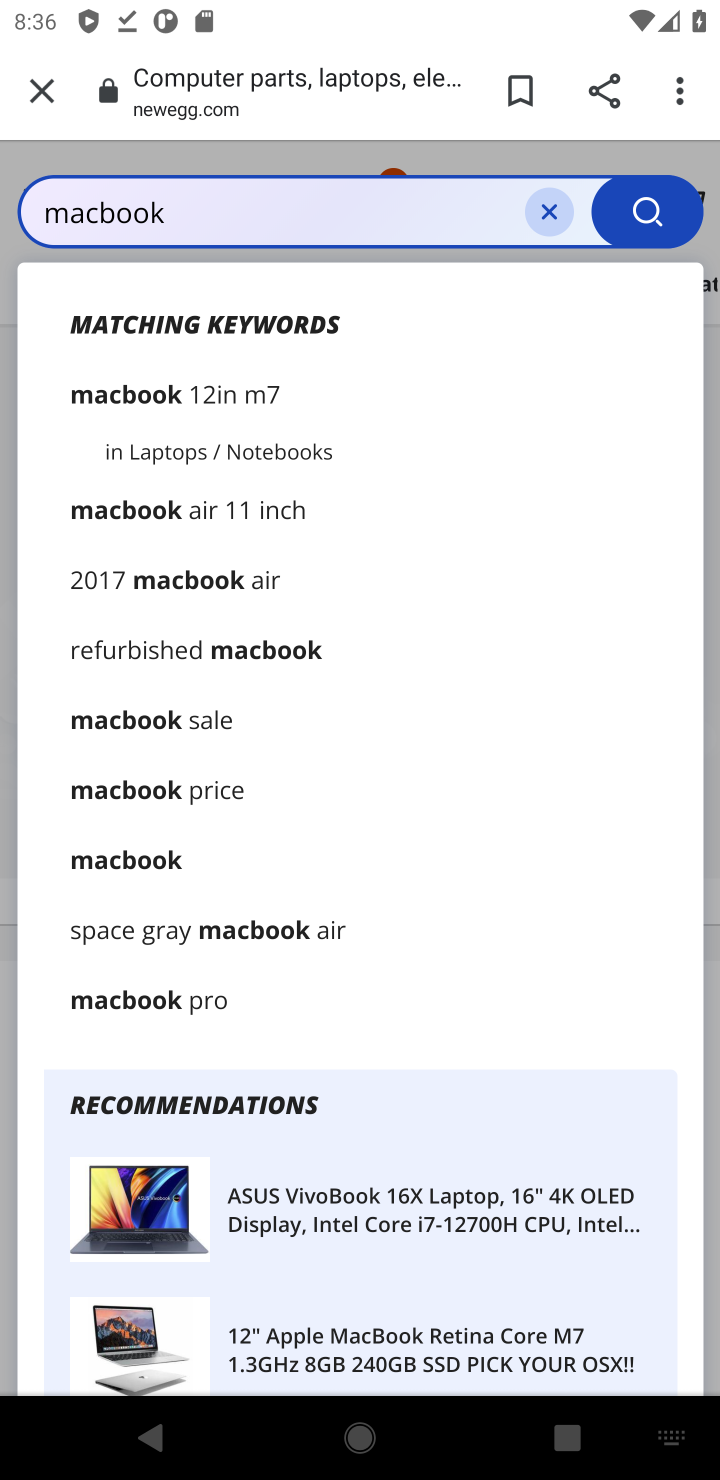
Step 32: click (159, 977)
Your task to perform on an android device: Add "macbook pro" to the cart on newegg.com, then select checkout. Image 33: 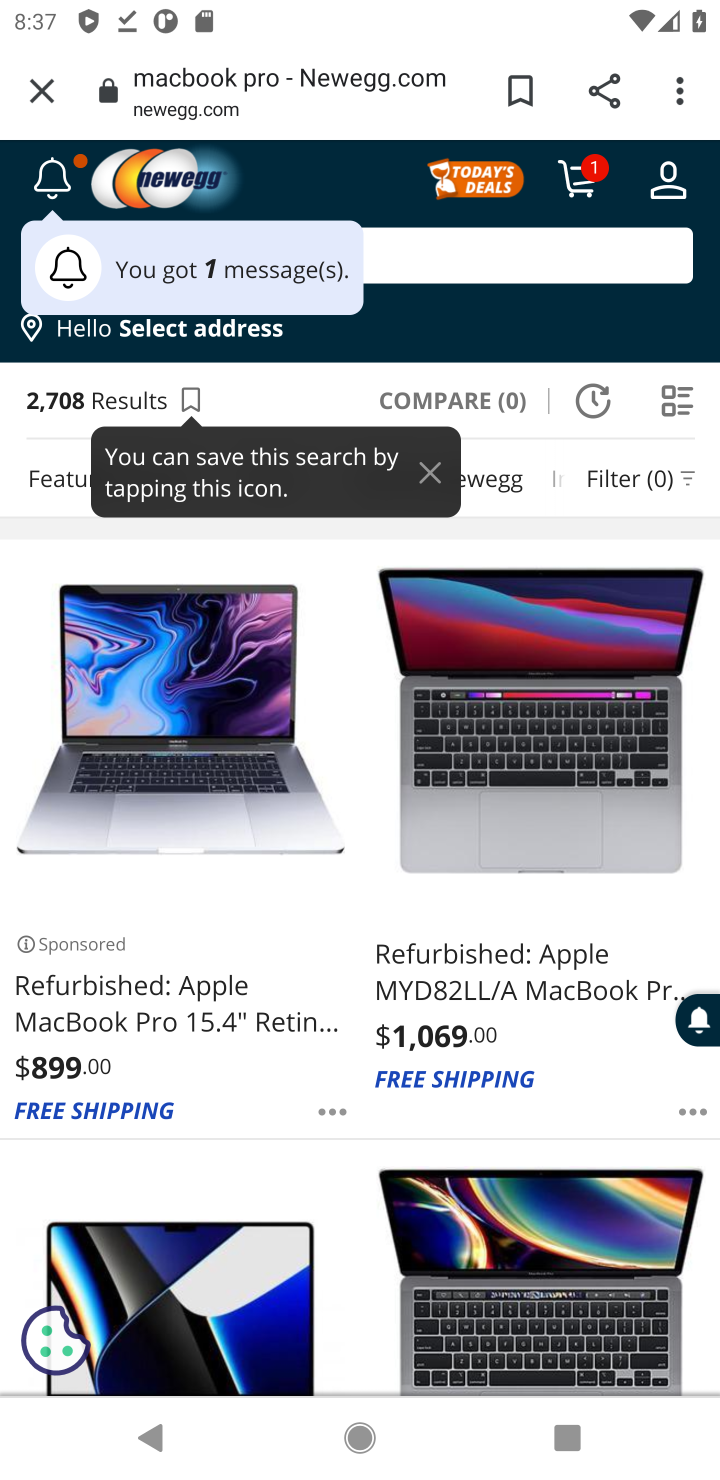
Step 33: click (167, 970)
Your task to perform on an android device: Add "macbook pro" to the cart on newegg.com, then select checkout. Image 34: 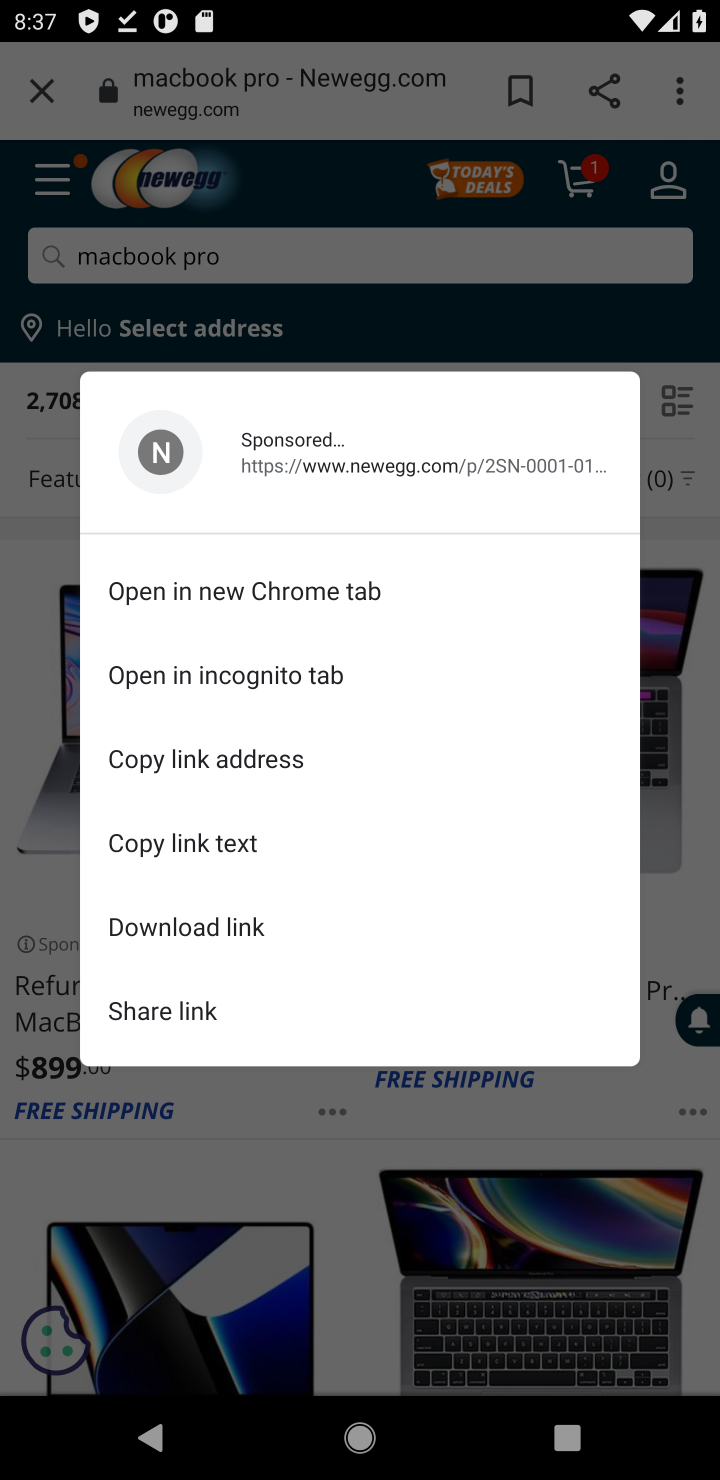
Step 34: click (651, 880)
Your task to perform on an android device: Add "macbook pro" to the cart on newegg.com, then select checkout. Image 35: 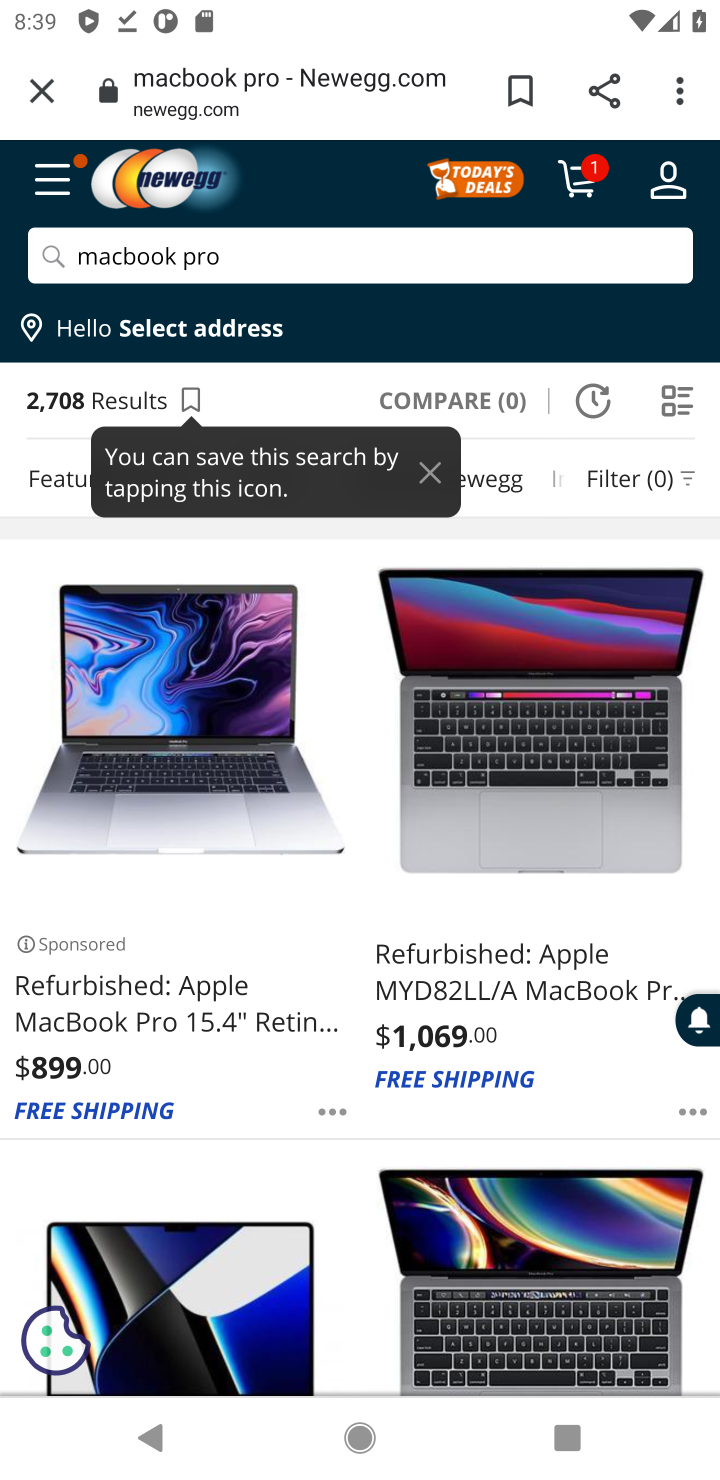
Step 35: click (136, 1053)
Your task to perform on an android device: Add "macbook pro" to the cart on newegg.com, then select checkout. Image 36: 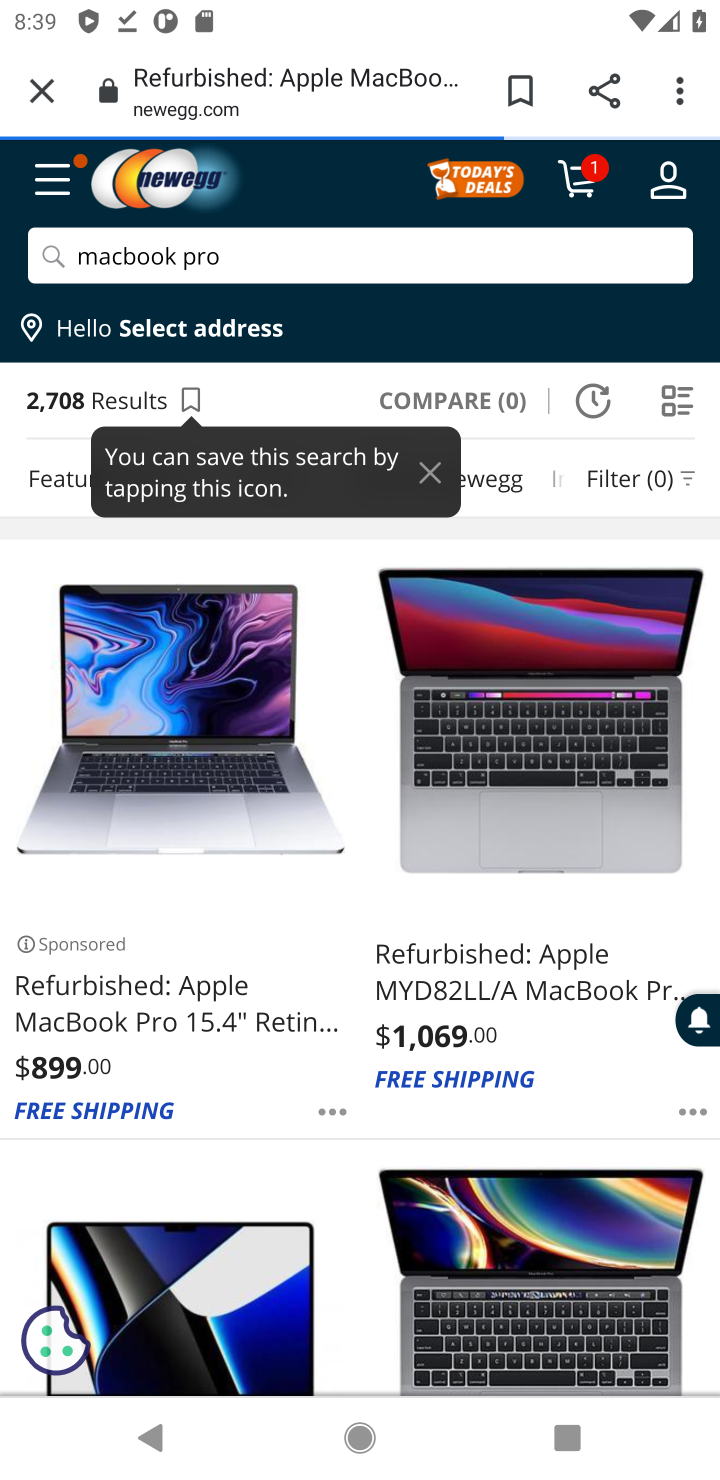
Step 36: click (136, 1013)
Your task to perform on an android device: Add "macbook pro" to the cart on newegg.com, then select checkout. Image 37: 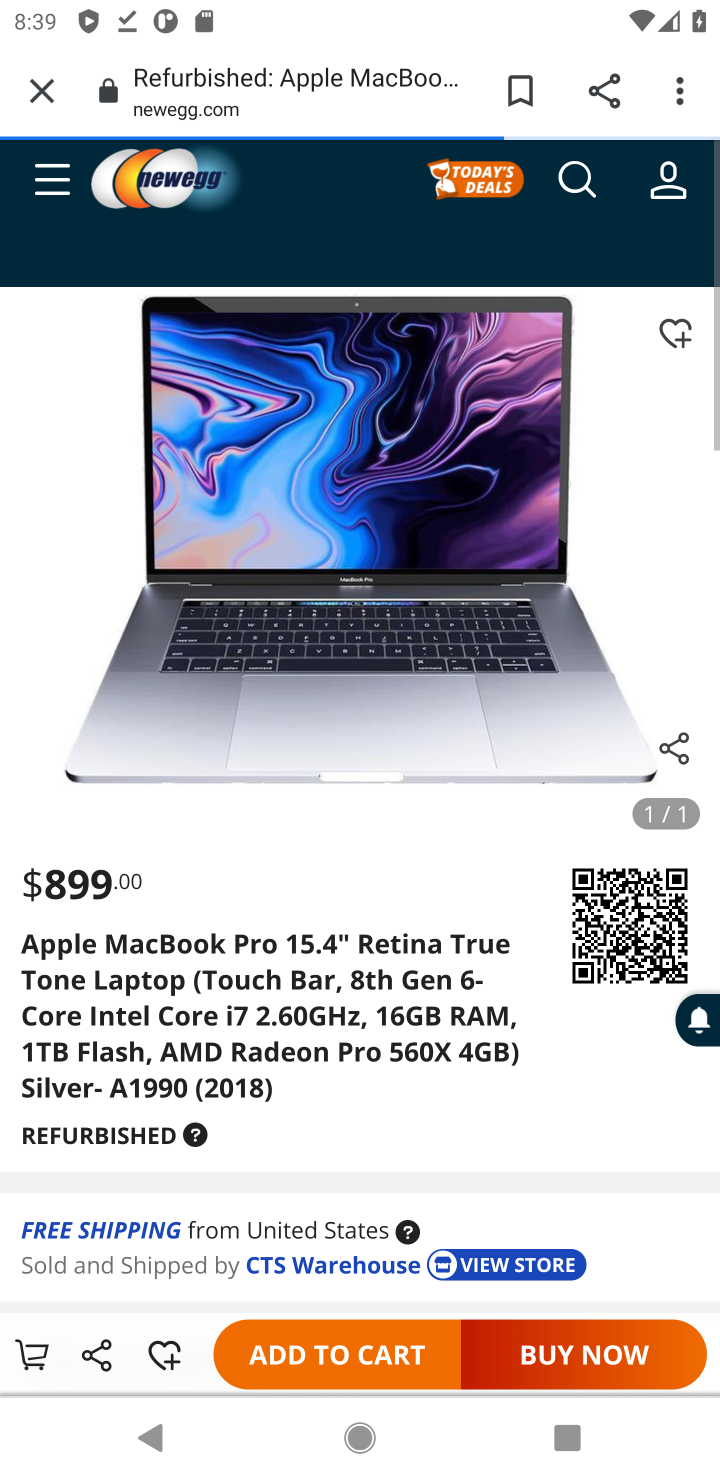
Step 37: drag from (294, 1028) to (302, 581)
Your task to perform on an android device: Add "macbook pro" to the cart on newegg.com, then select checkout. Image 38: 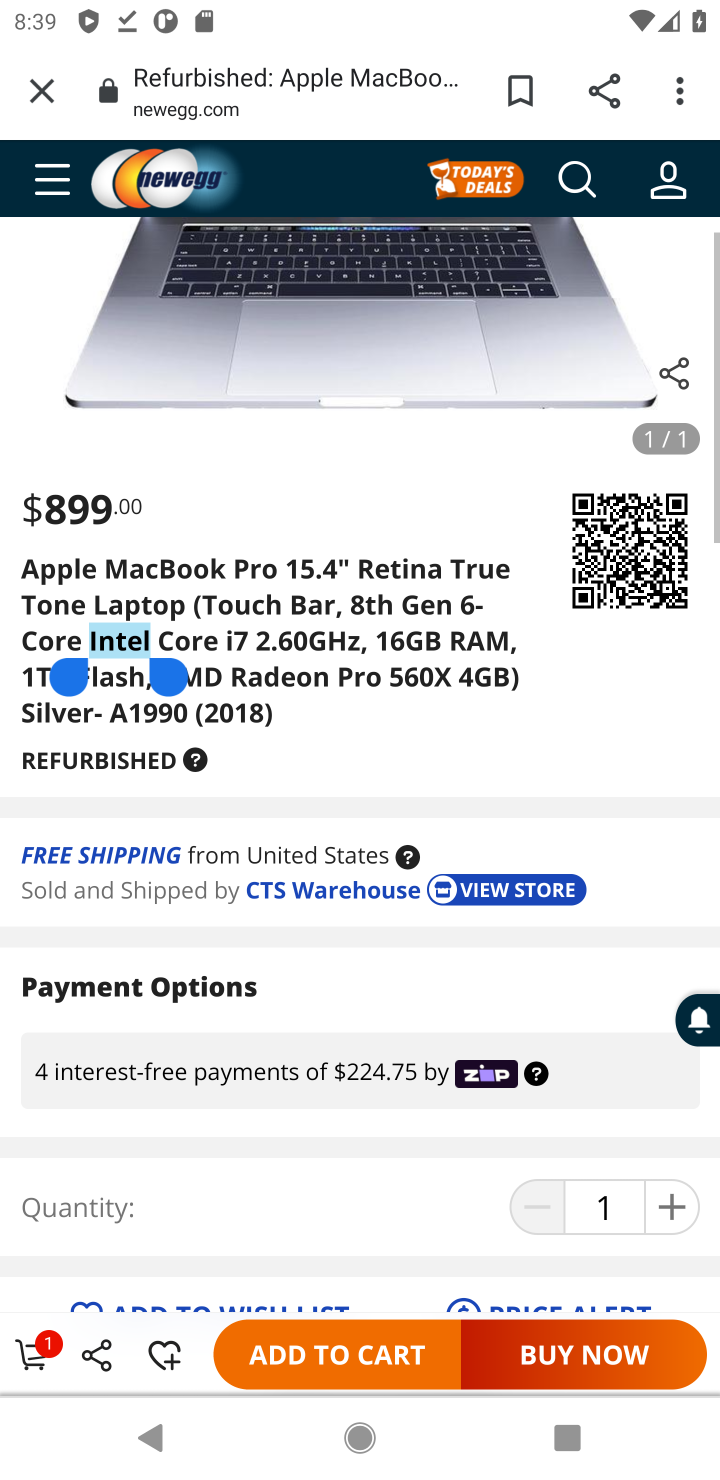
Step 38: drag from (339, 1156) to (345, 941)
Your task to perform on an android device: Add "macbook pro" to the cart on newegg.com, then select checkout. Image 39: 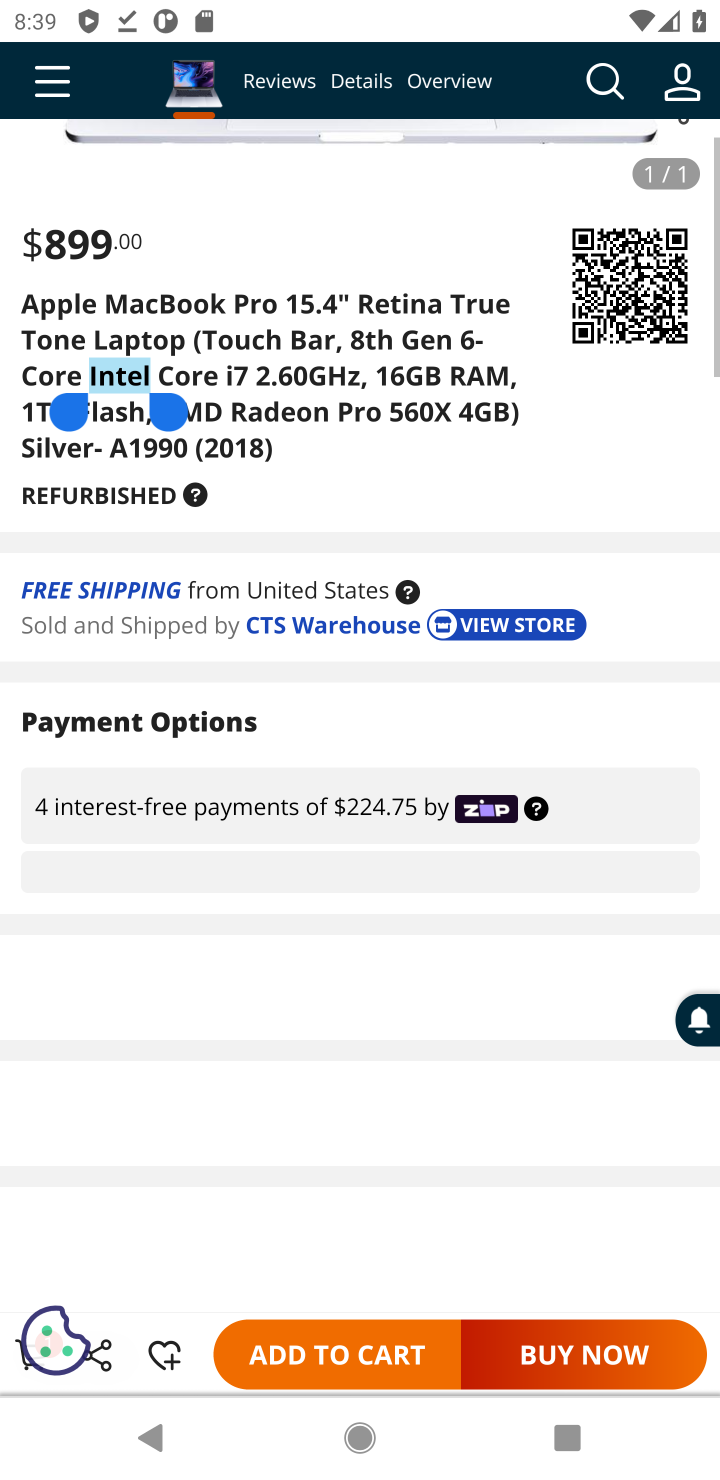
Step 39: click (352, 1347)
Your task to perform on an android device: Add "macbook pro" to the cart on newegg.com, then select checkout. Image 40: 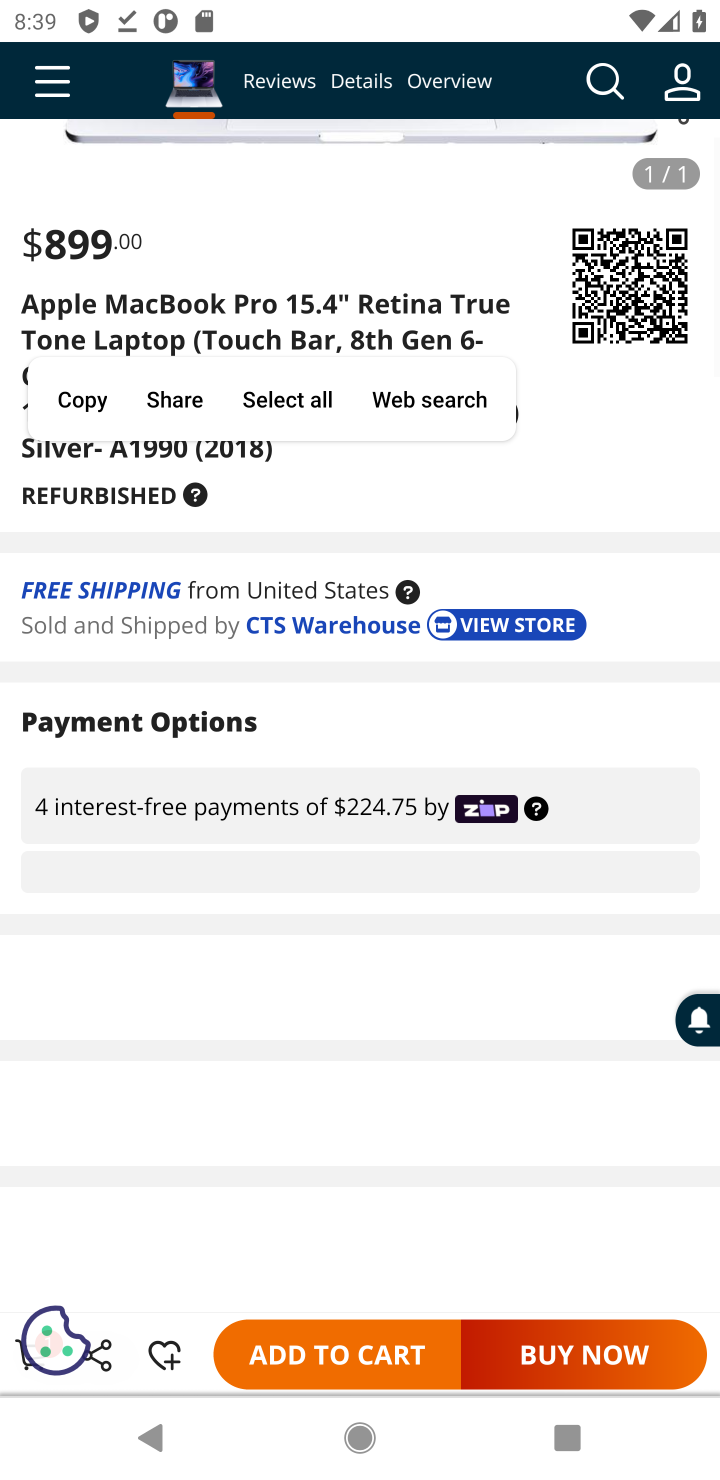
Step 40: task complete